Your task to perform on an android device: Search for macbook pro 13 inch on bestbuy.com, select the first entry, add it to the cart, then select checkout. Image 0: 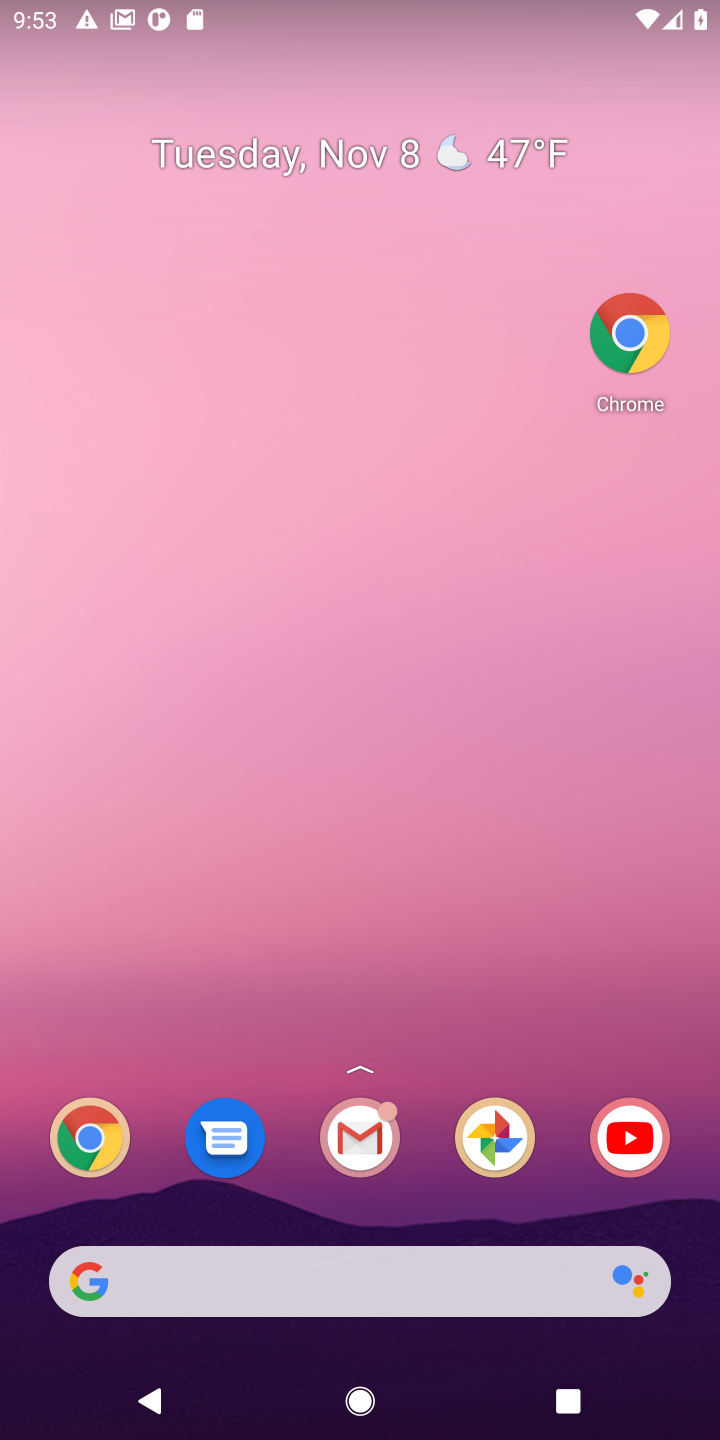
Step 0: drag from (319, 1256) to (537, 36)
Your task to perform on an android device: Search for macbook pro 13 inch on bestbuy.com, select the first entry, add it to the cart, then select checkout. Image 1: 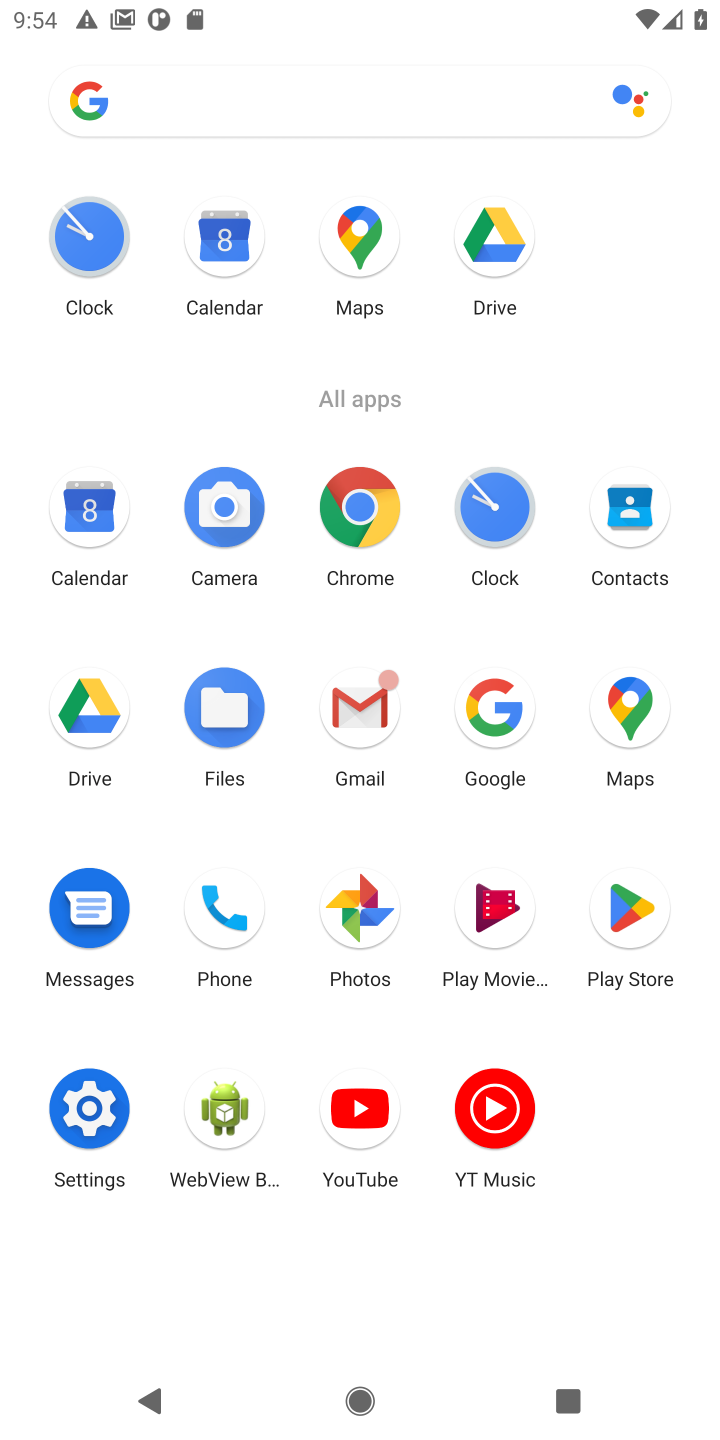
Step 1: click (353, 499)
Your task to perform on an android device: Search for macbook pro 13 inch on bestbuy.com, select the first entry, add it to the cart, then select checkout. Image 2: 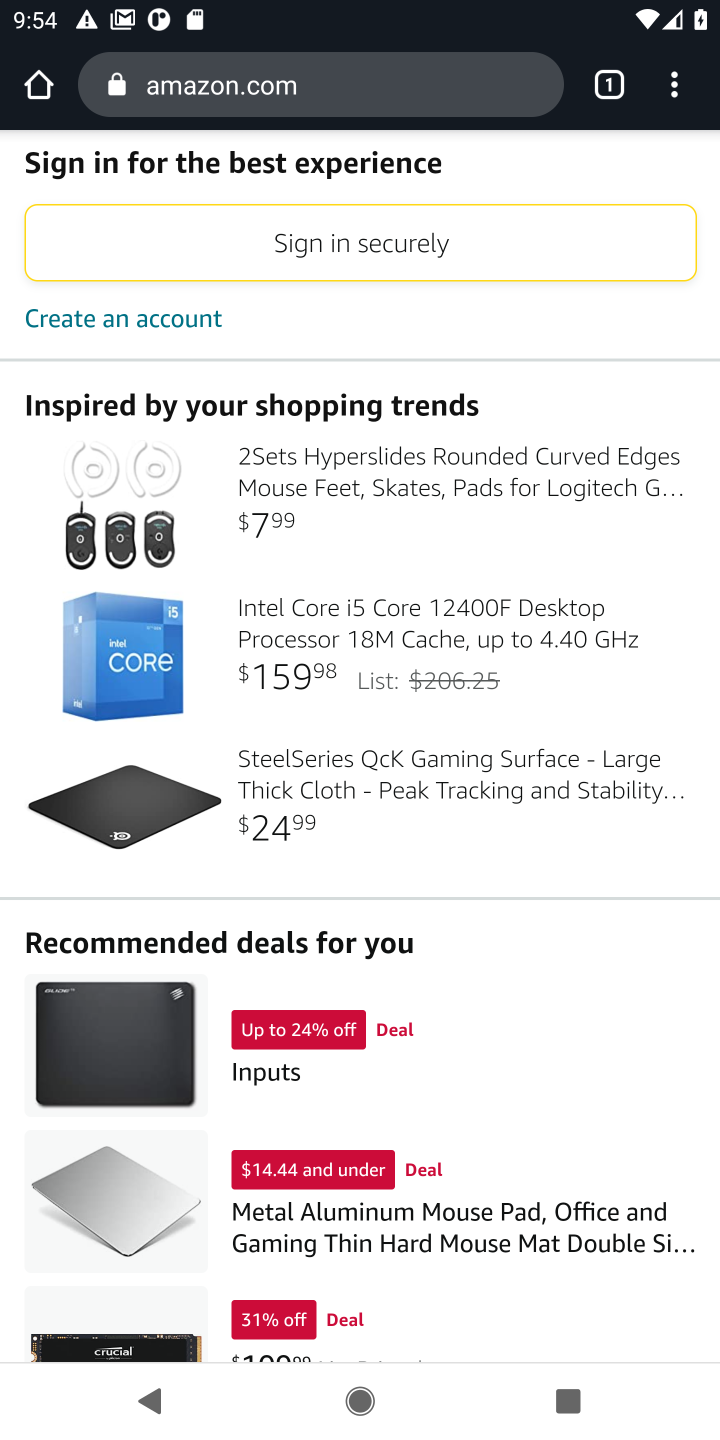
Step 2: click (326, 137)
Your task to perform on an android device: Search for macbook pro 13 inch on bestbuy.com, select the first entry, add it to the cart, then select checkout. Image 3: 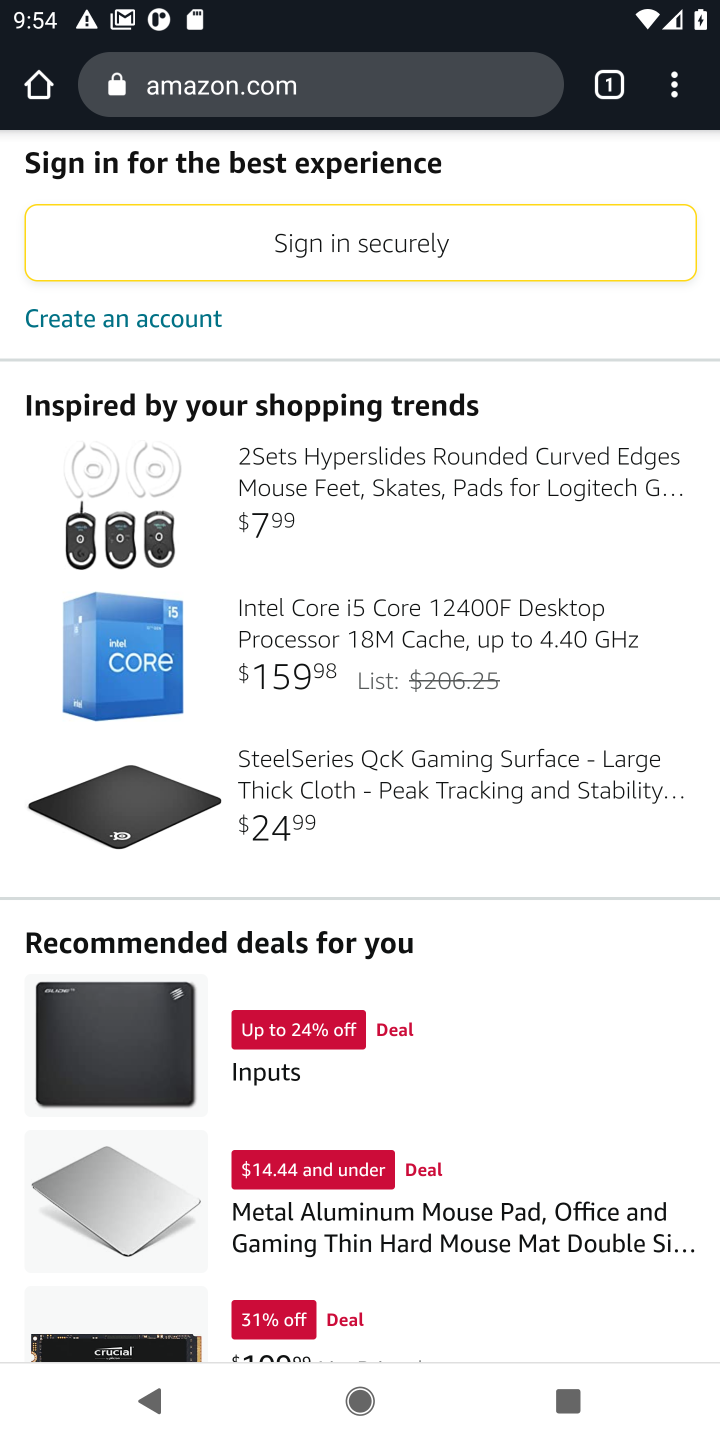
Step 3: click (353, 98)
Your task to perform on an android device: Search for macbook pro 13 inch on bestbuy.com, select the first entry, add it to the cart, then select checkout. Image 4: 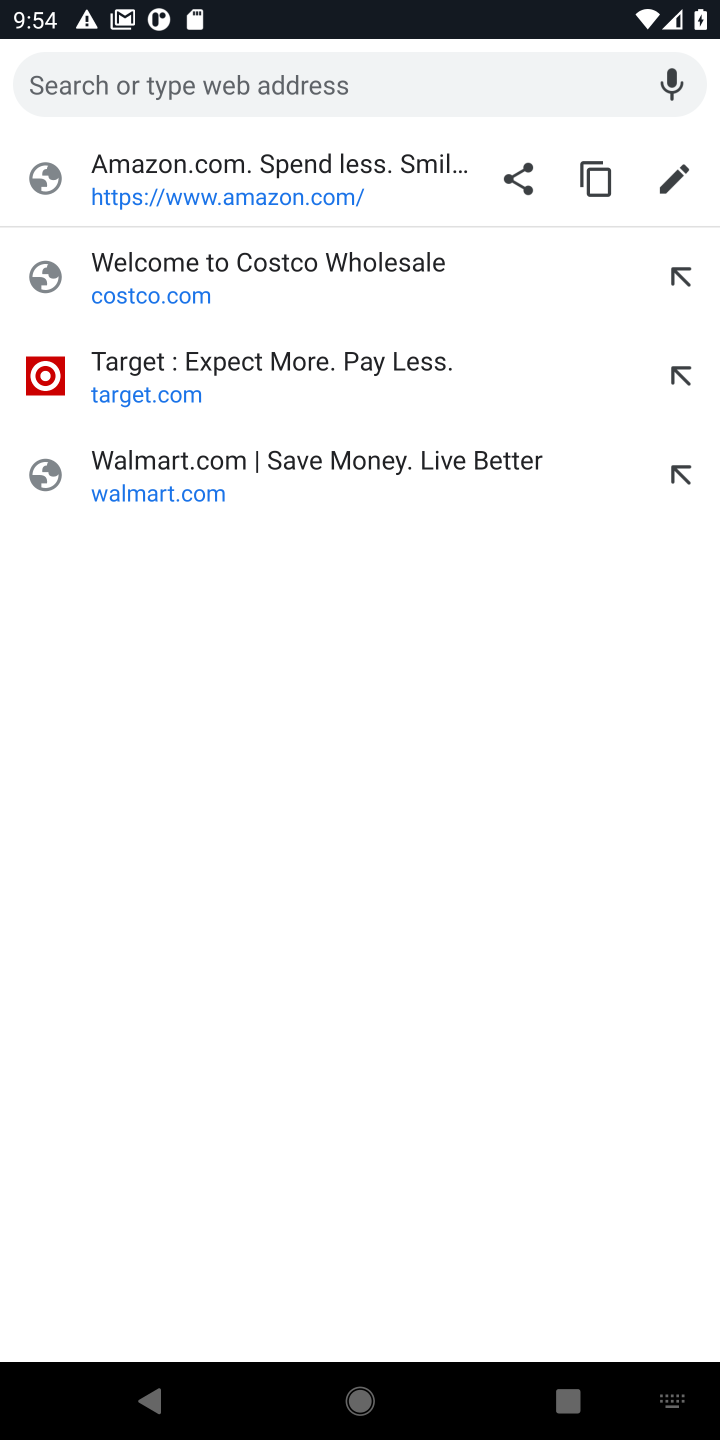
Step 4: press enter
Your task to perform on an android device: Search for macbook pro 13 inch on bestbuy.com, select the first entry, add it to the cart, then select checkout. Image 5: 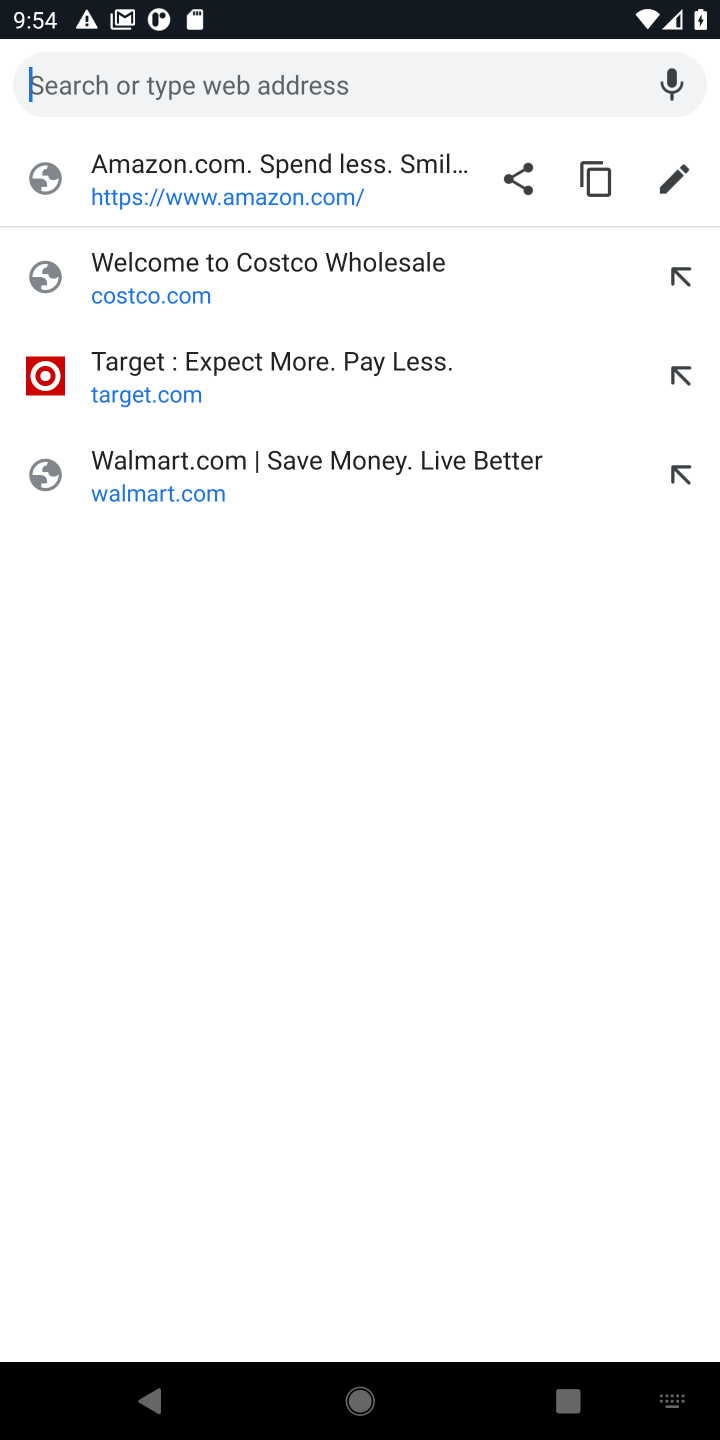
Step 5: type "bestbuy.com"
Your task to perform on an android device: Search for macbook pro 13 inch on bestbuy.com, select the first entry, add it to the cart, then select checkout. Image 6: 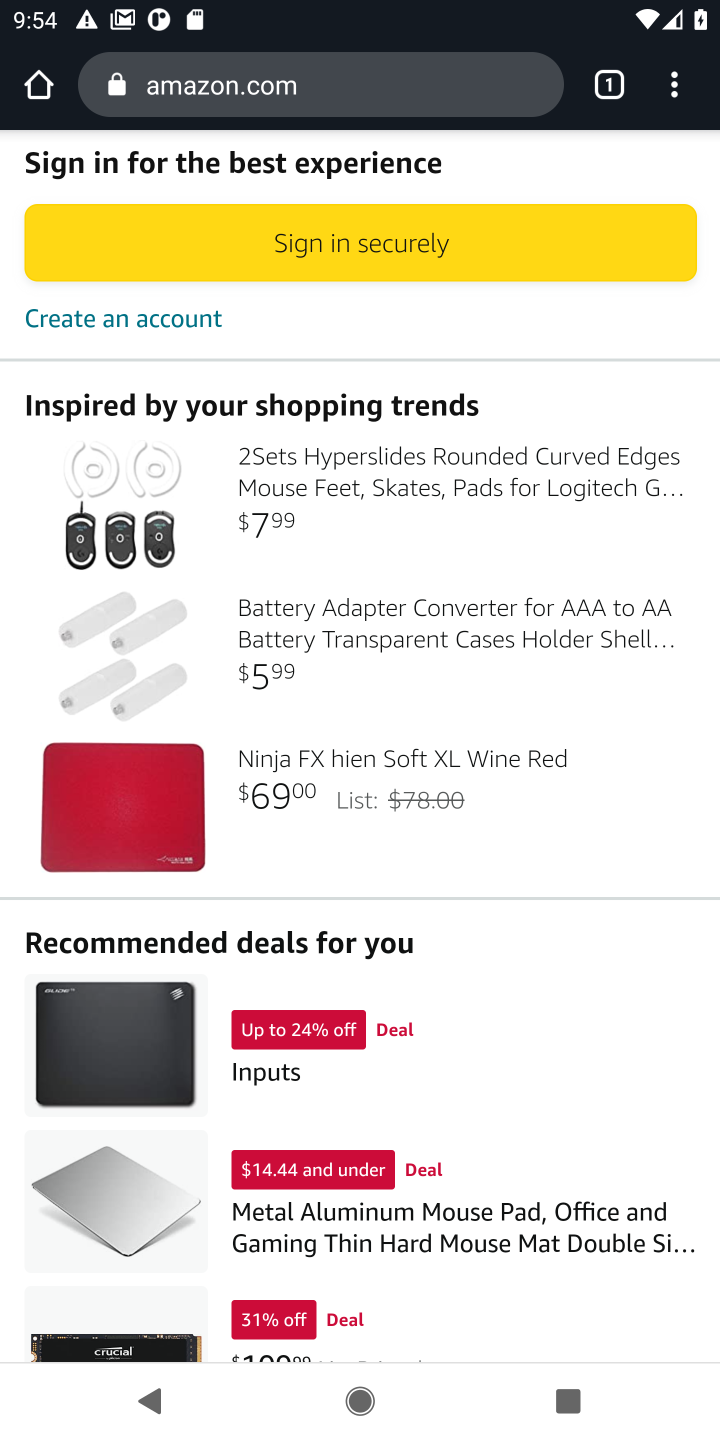
Step 6: drag from (412, 955) to (552, 483)
Your task to perform on an android device: Search for macbook pro 13 inch on bestbuy.com, select the first entry, add it to the cart, then select checkout. Image 7: 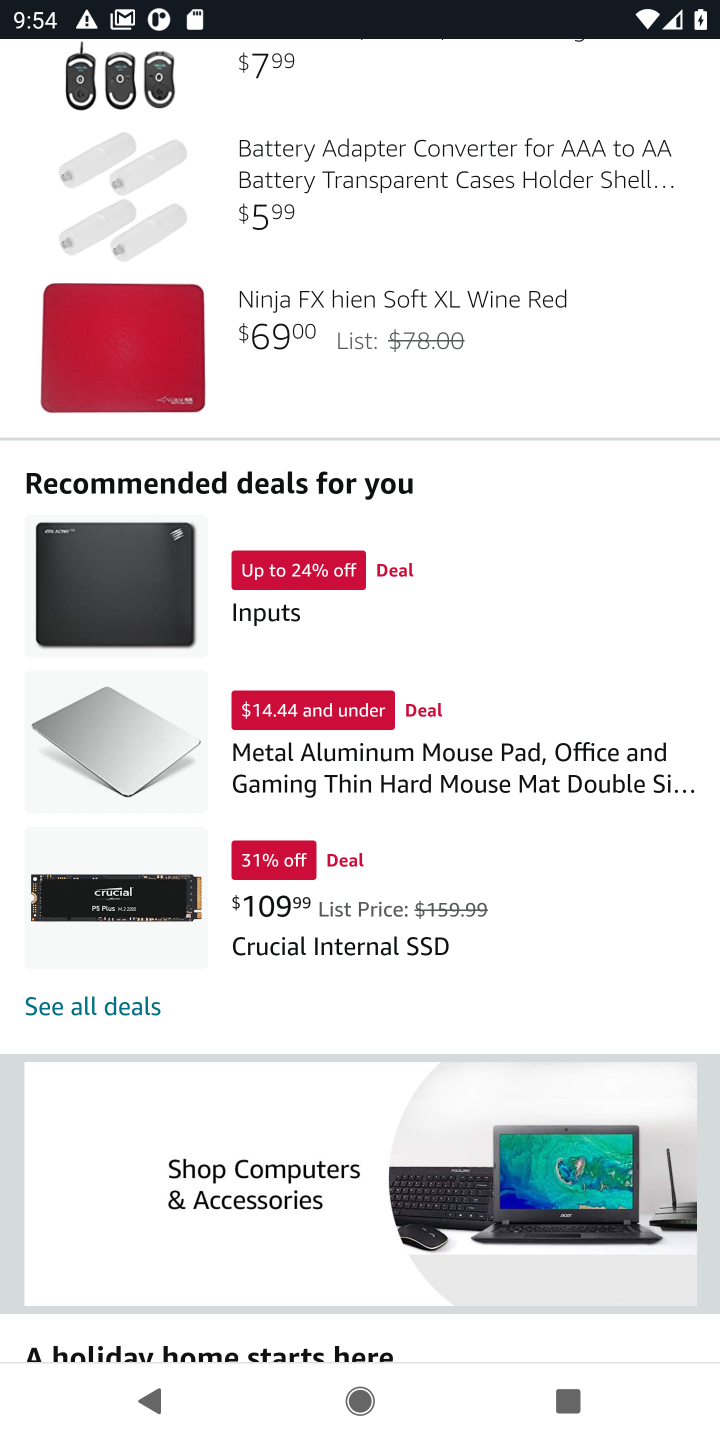
Step 7: drag from (381, 1057) to (536, 211)
Your task to perform on an android device: Search for macbook pro 13 inch on bestbuy.com, select the first entry, add it to the cart, then select checkout. Image 8: 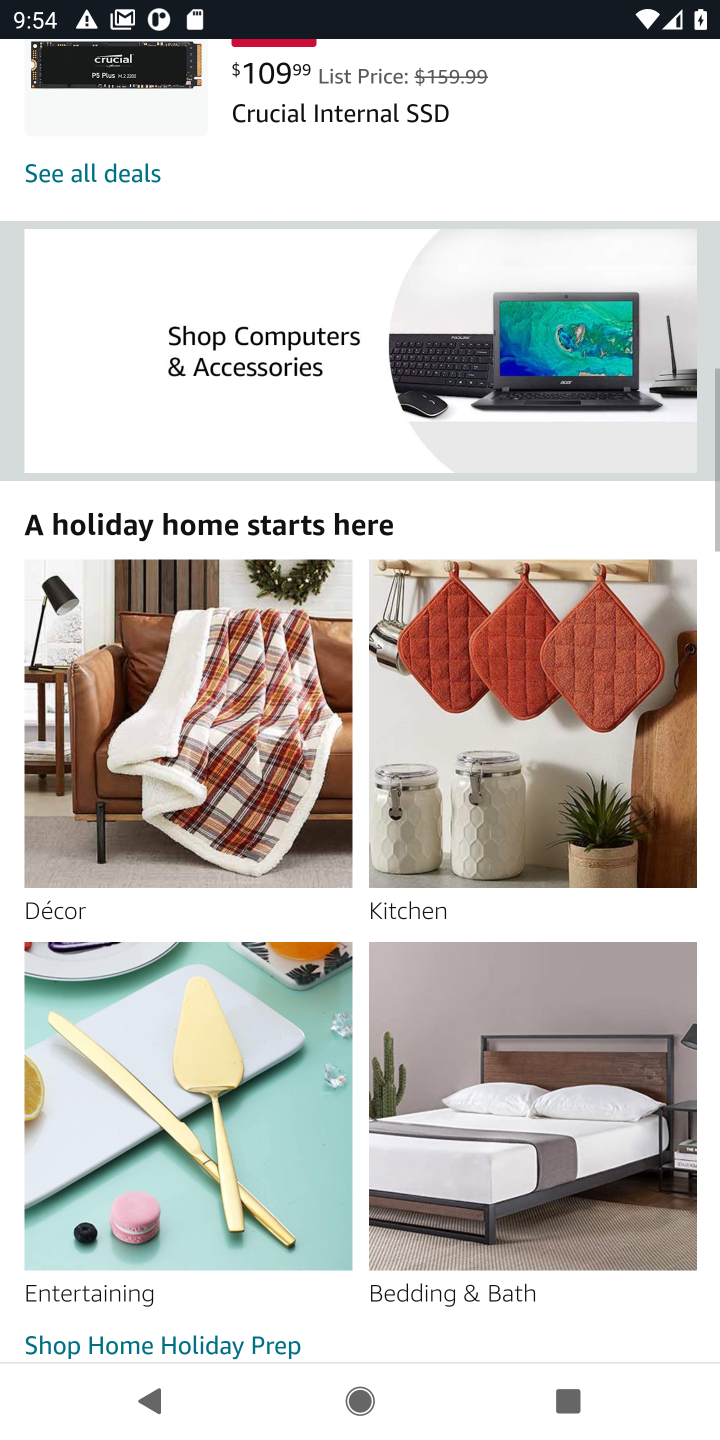
Step 8: drag from (369, 1074) to (519, 409)
Your task to perform on an android device: Search for macbook pro 13 inch on bestbuy.com, select the first entry, add it to the cart, then select checkout. Image 9: 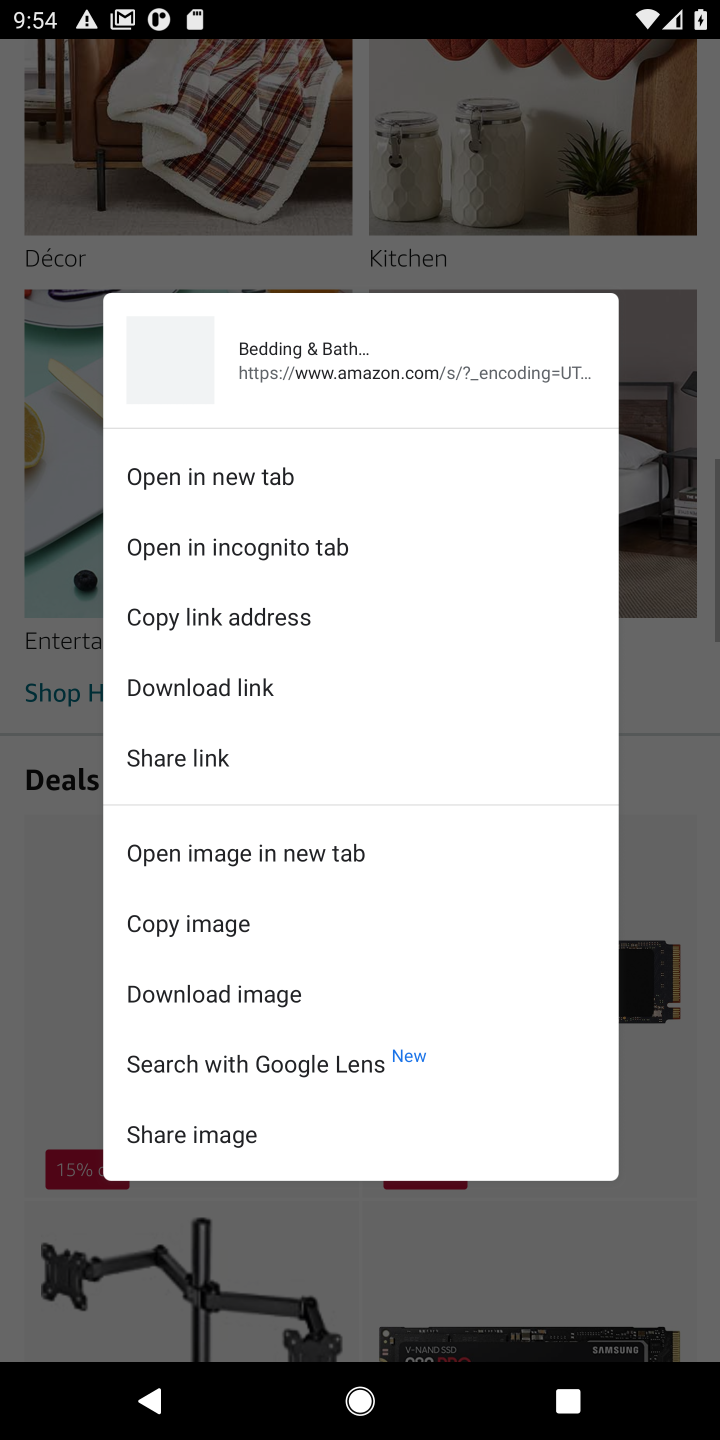
Step 9: drag from (472, 529) to (303, 1166)
Your task to perform on an android device: Search for macbook pro 13 inch on bestbuy.com, select the first entry, add it to the cart, then select checkout. Image 10: 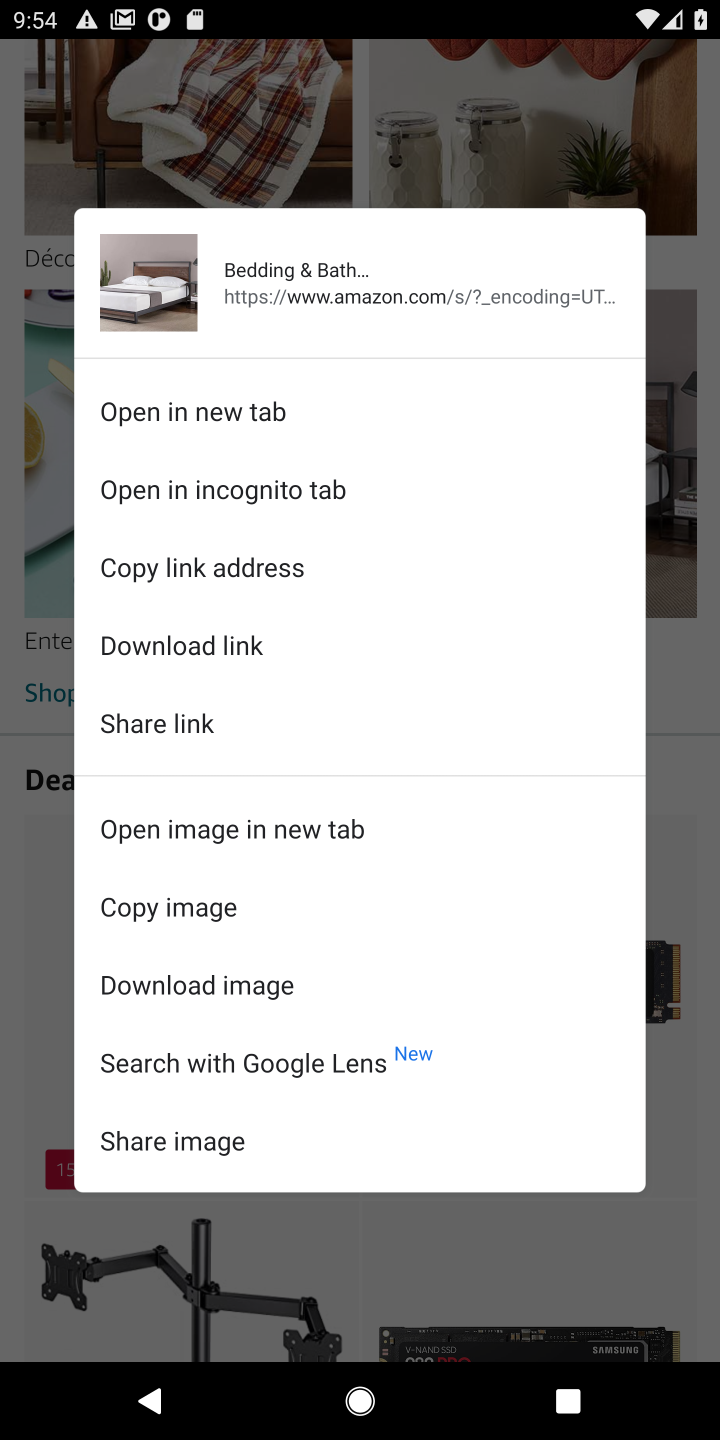
Step 10: click (343, 1210)
Your task to perform on an android device: Search for macbook pro 13 inch on bestbuy.com, select the first entry, add it to the cart, then select checkout. Image 11: 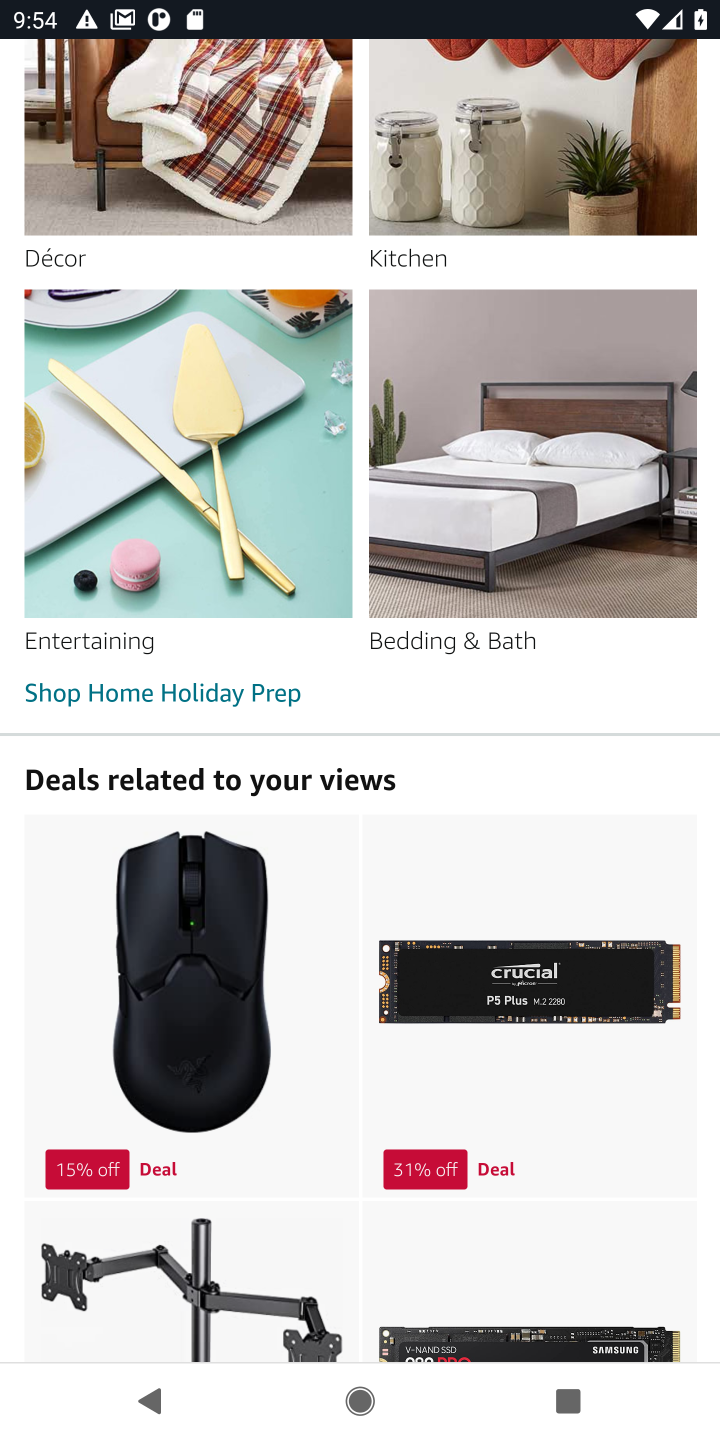
Step 11: drag from (556, 460) to (449, 979)
Your task to perform on an android device: Search for macbook pro 13 inch on bestbuy.com, select the first entry, add it to the cart, then select checkout. Image 12: 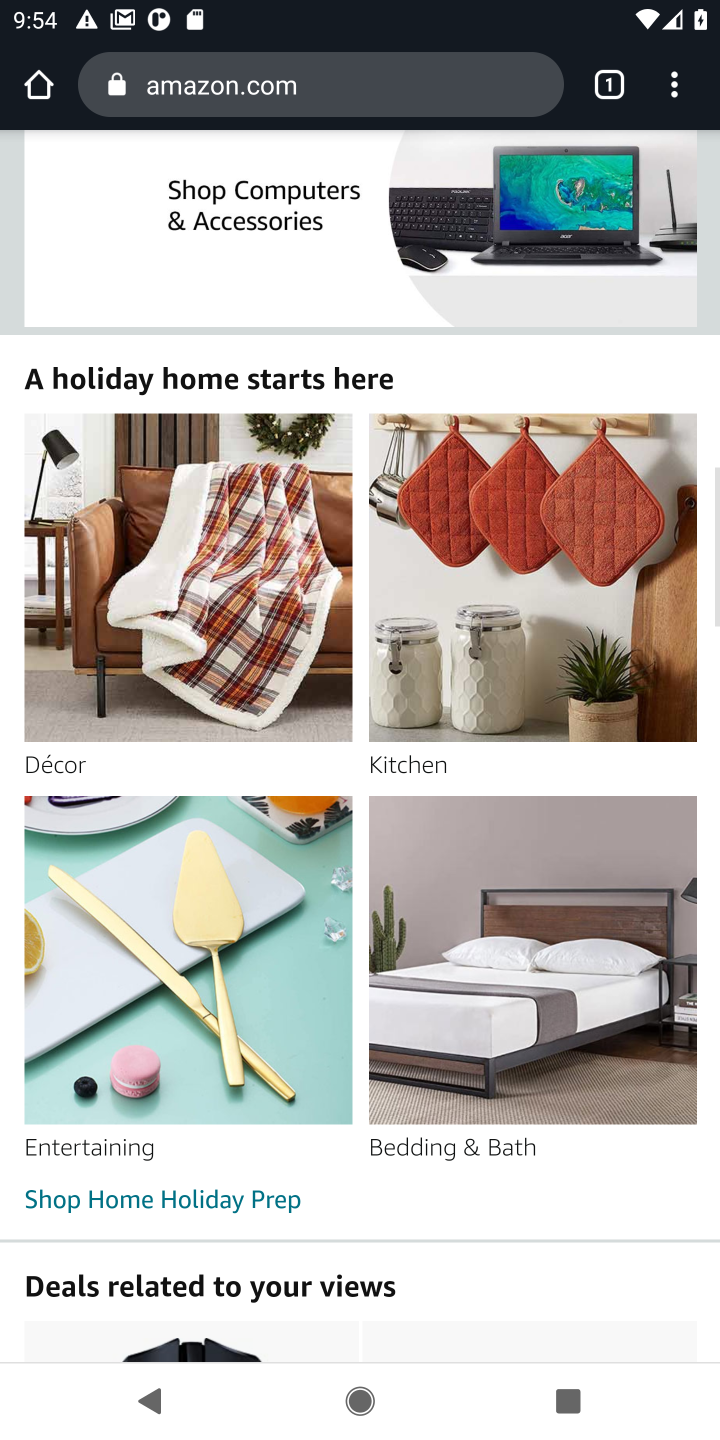
Step 12: click (437, 841)
Your task to perform on an android device: Search for macbook pro 13 inch on bestbuy.com, select the first entry, add it to the cart, then select checkout. Image 13: 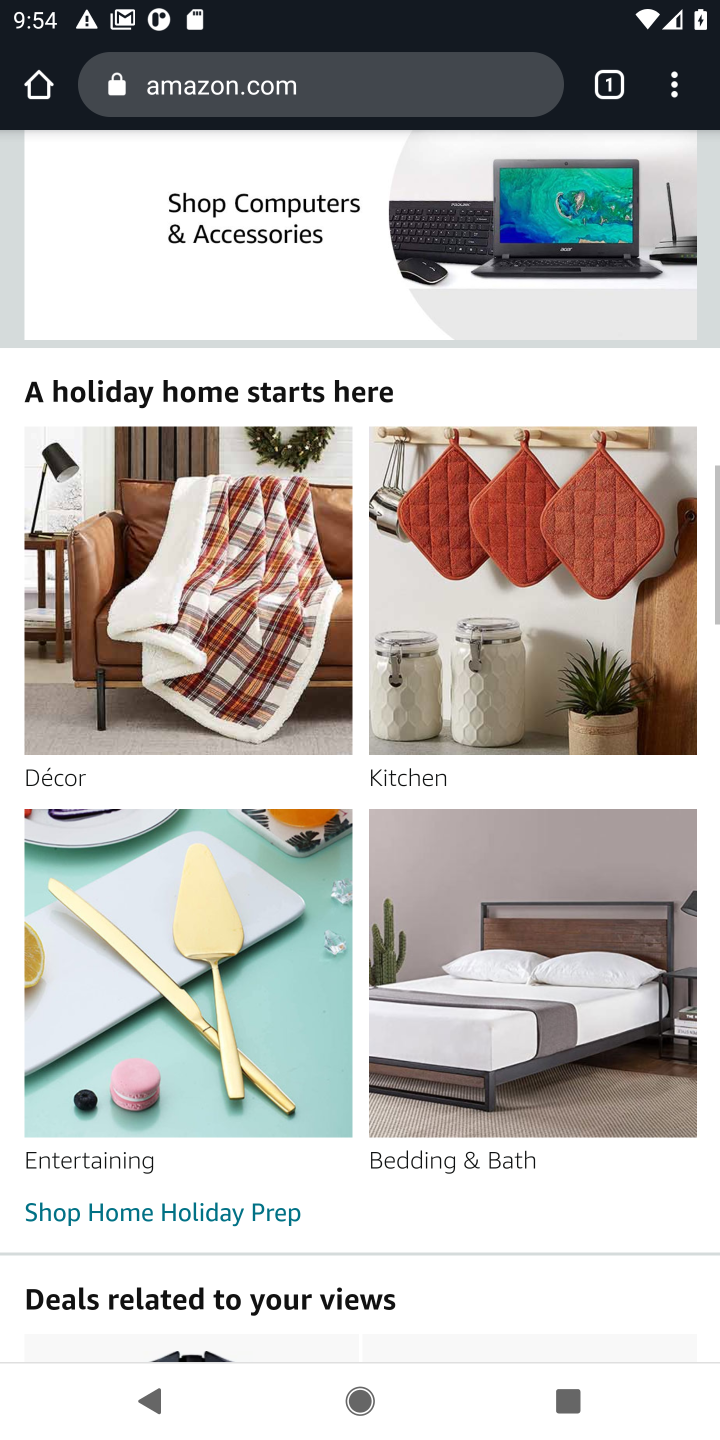
Step 13: drag from (534, 303) to (447, 830)
Your task to perform on an android device: Search for macbook pro 13 inch on bestbuy.com, select the first entry, add it to the cart, then select checkout. Image 14: 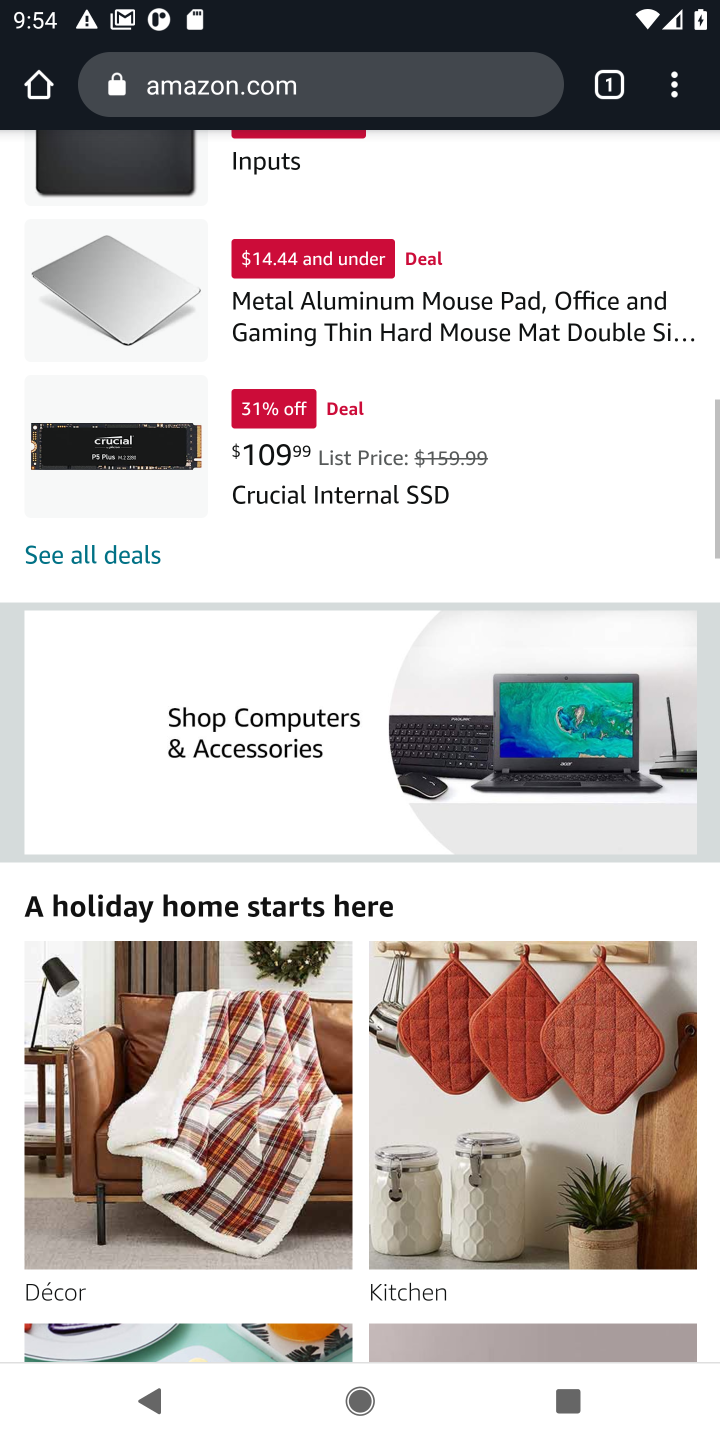
Step 14: drag from (581, 416) to (505, 888)
Your task to perform on an android device: Search for macbook pro 13 inch on bestbuy.com, select the first entry, add it to the cart, then select checkout. Image 15: 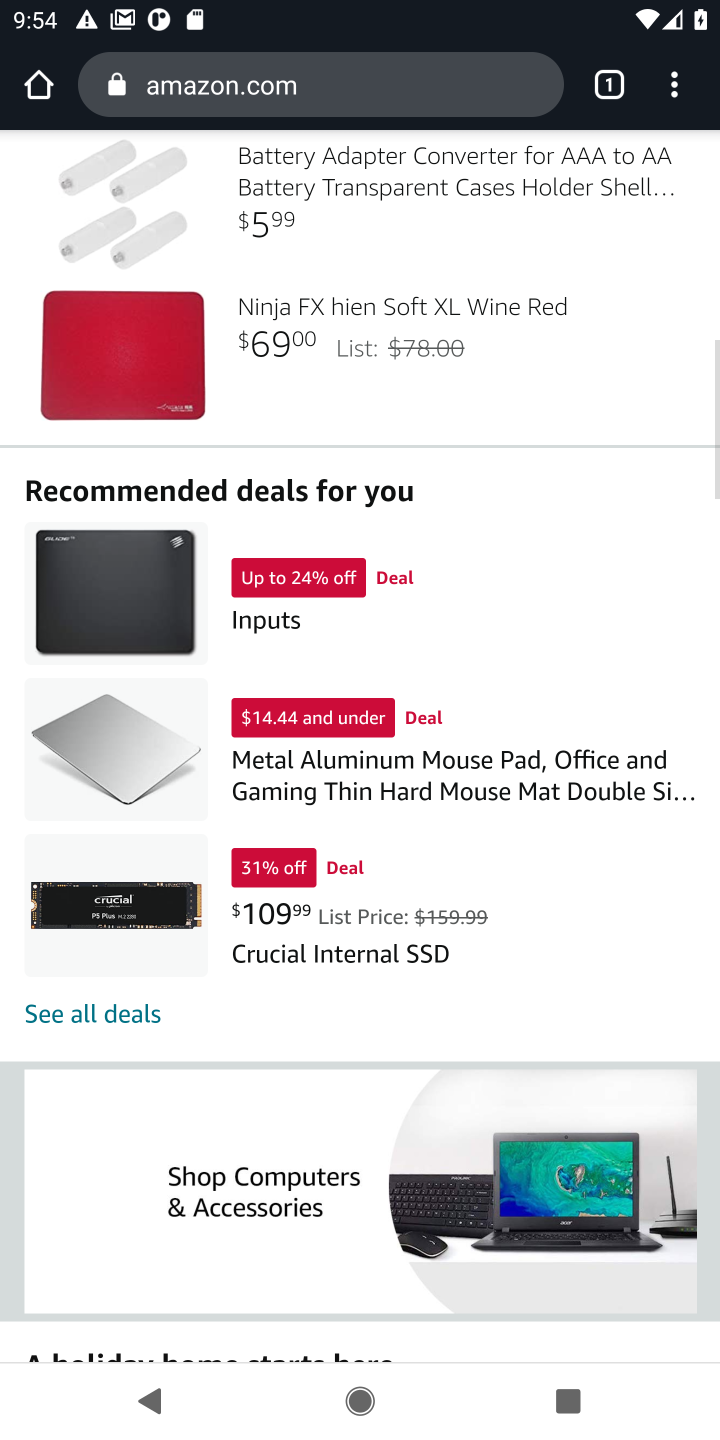
Step 15: click (507, 766)
Your task to perform on an android device: Search for macbook pro 13 inch on bestbuy.com, select the first entry, add it to the cart, then select checkout. Image 16: 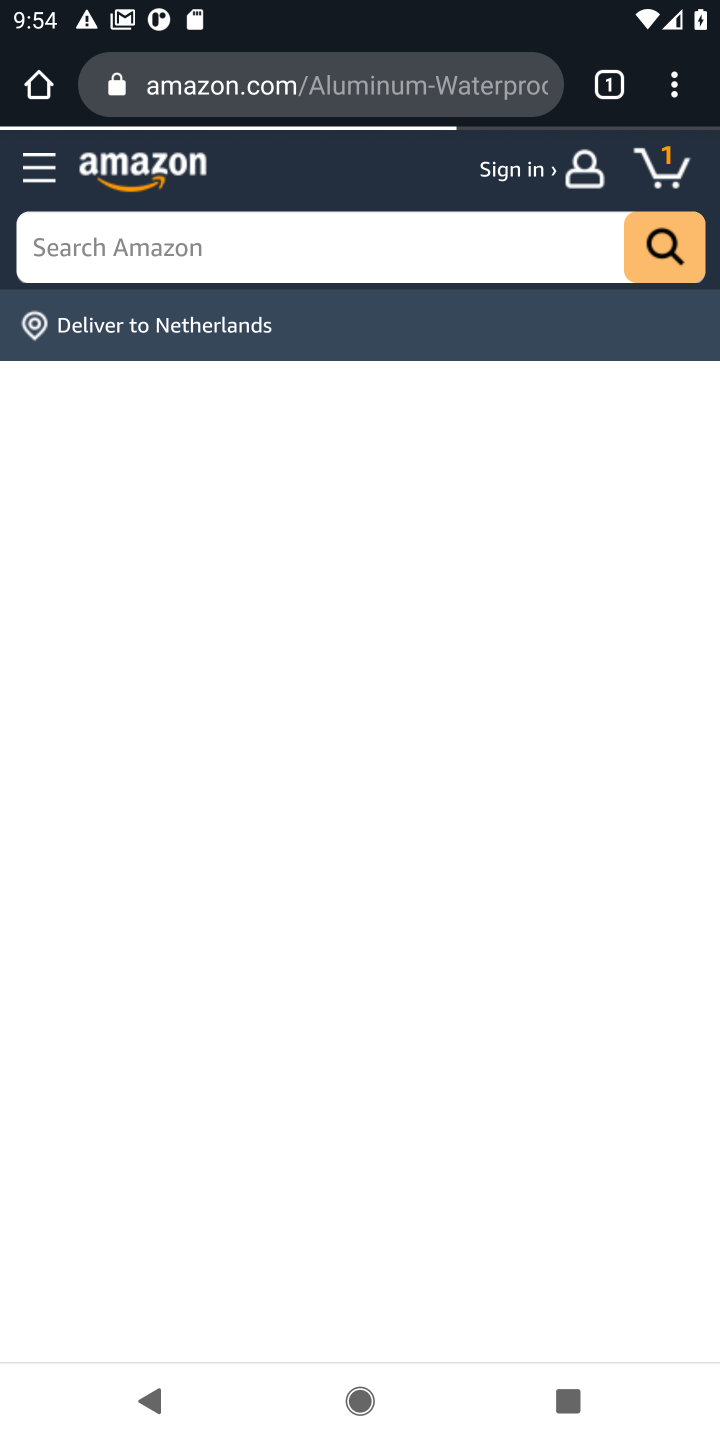
Step 16: drag from (529, 576) to (518, 875)
Your task to perform on an android device: Search for macbook pro 13 inch on bestbuy.com, select the first entry, add it to the cart, then select checkout. Image 17: 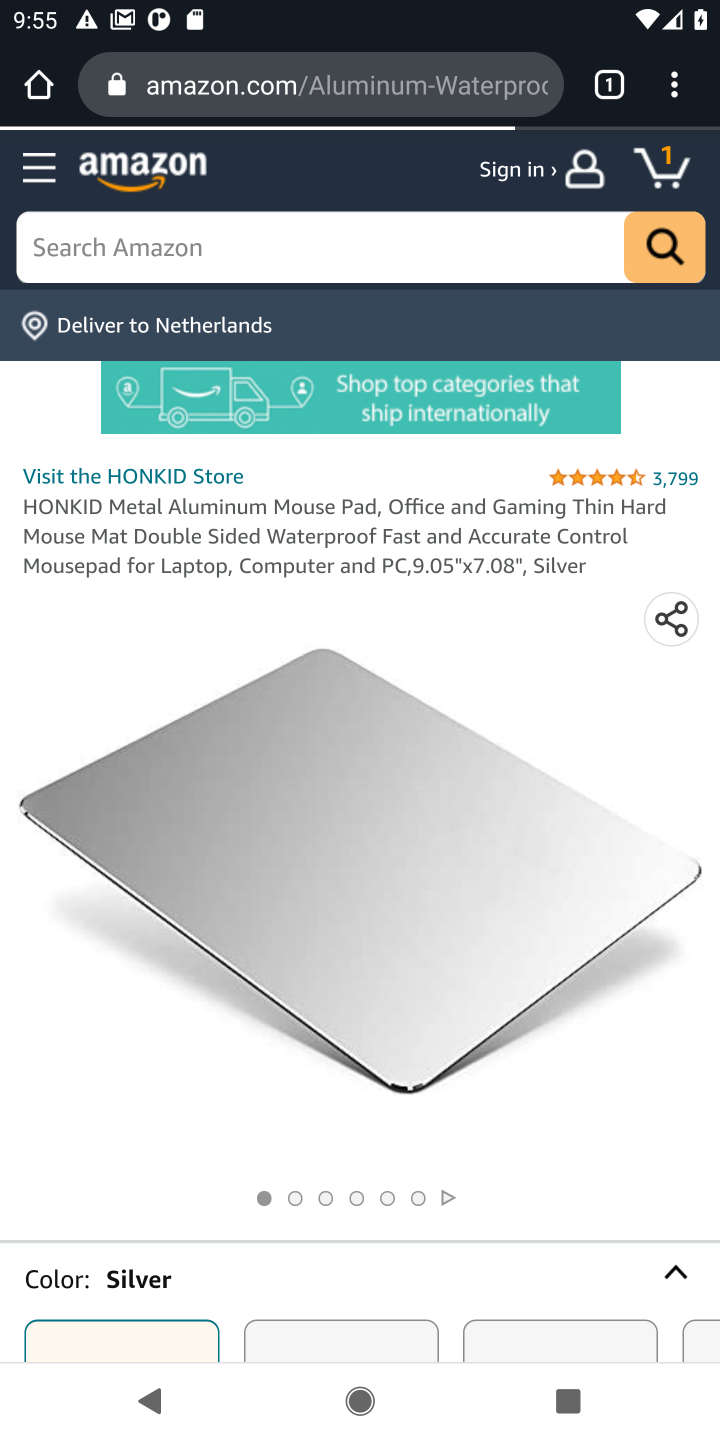
Step 17: click (384, 268)
Your task to perform on an android device: Search for macbook pro 13 inch on bestbuy.com, select the first entry, add it to the cart, then select checkout. Image 18: 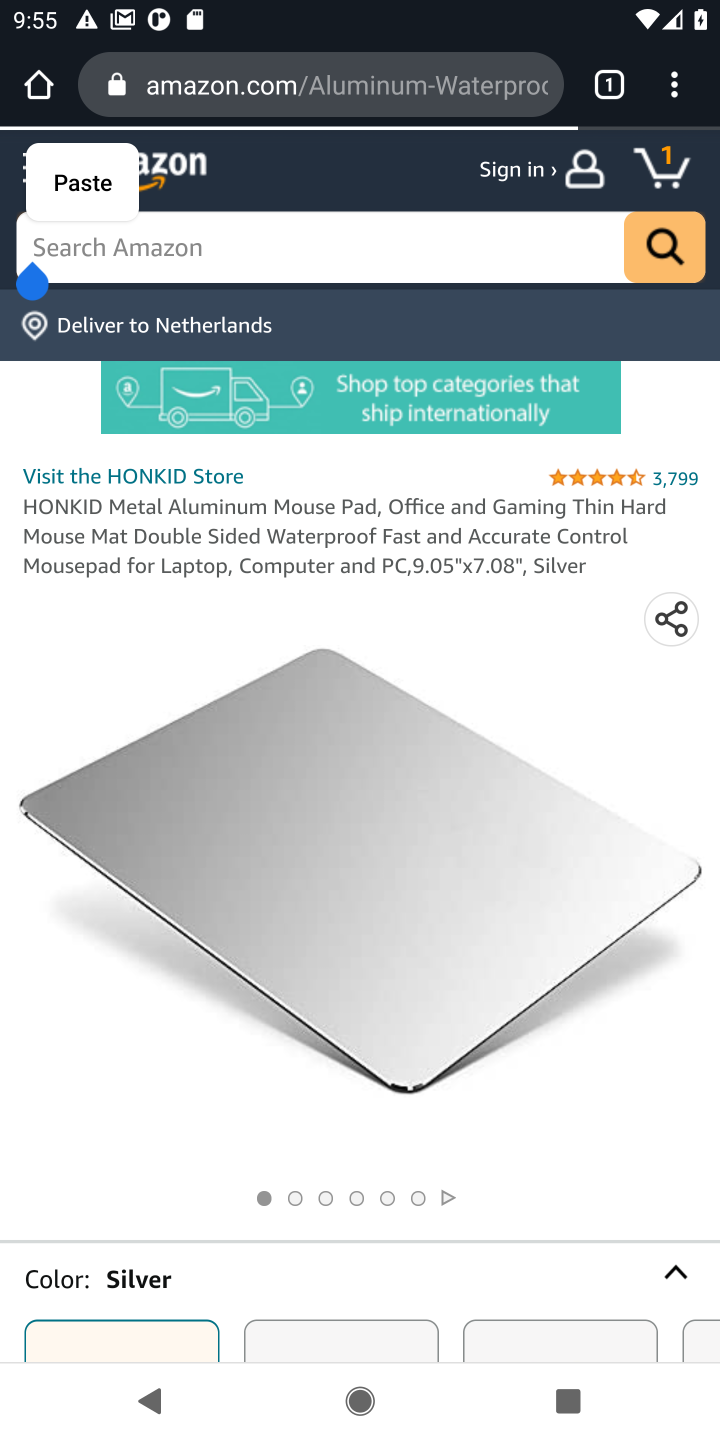
Step 18: click (71, 197)
Your task to perform on an android device: Search for macbook pro 13 inch on bestbuy.com, select the first entry, add it to the cart, then select checkout. Image 19: 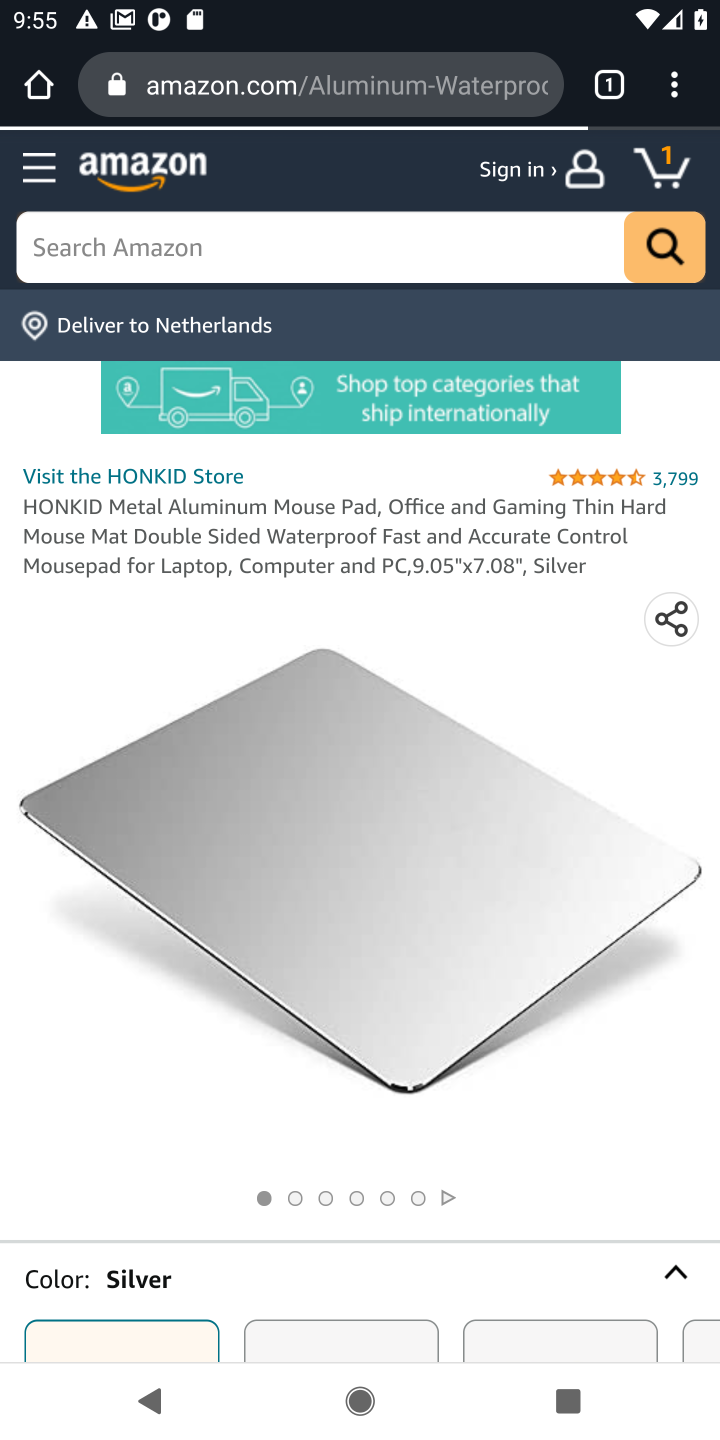
Step 19: click (348, 78)
Your task to perform on an android device: Search for macbook pro 13 inch on bestbuy.com, select the first entry, add it to the cart, then select checkout. Image 20: 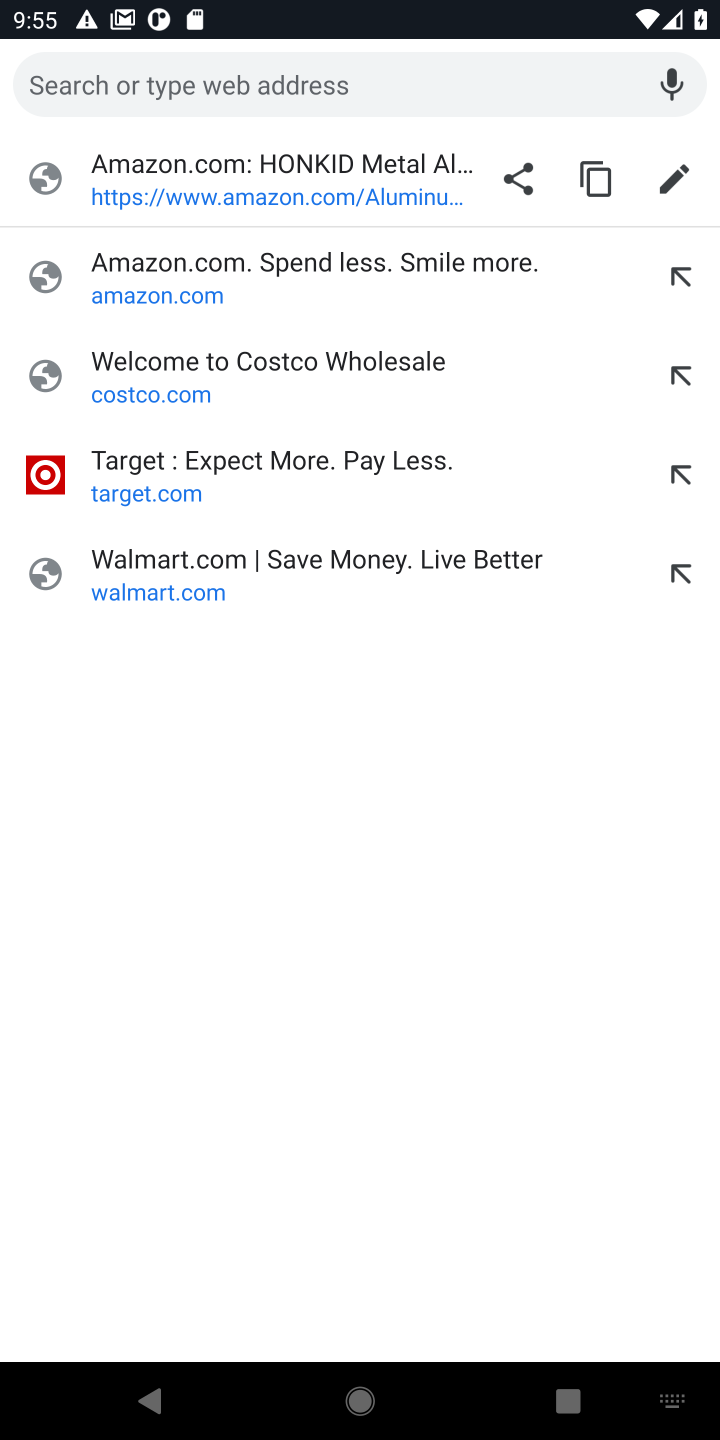
Step 20: type "bestbuy.com"
Your task to perform on an android device: Search for macbook pro 13 inch on bestbuy.com, select the first entry, add it to the cart, then select checkout. Image 21: 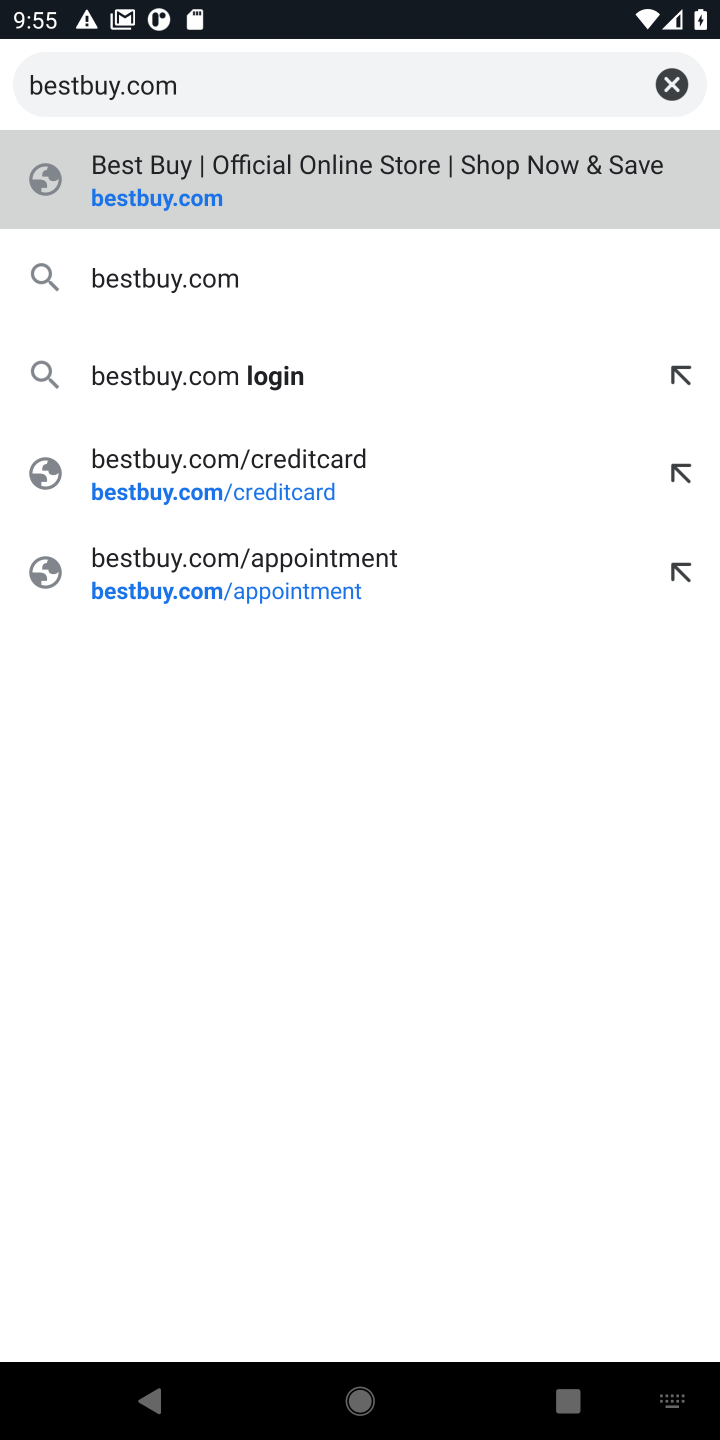
Step 21: press enter
Your task to perform on an android device: Search for macbook pro 13 inch on bestbuy.com, select the first entry, add it to the cart, then select checkout. Image 22: 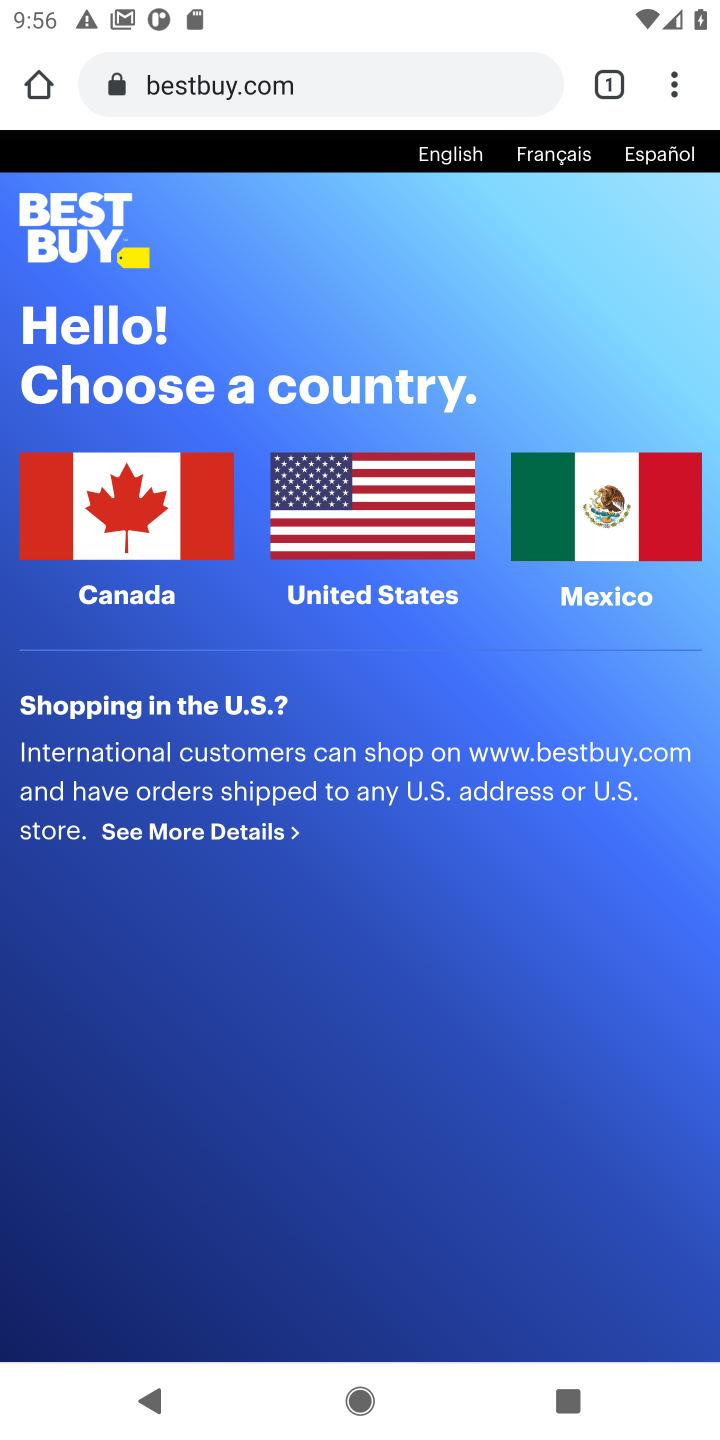
Step 22: click (125, 525)
Your task to perform on an android device: Search for macbook pro 13 inch on bestbuy.com, select the first entry, add it to the cart, then select checkout. Image 23: 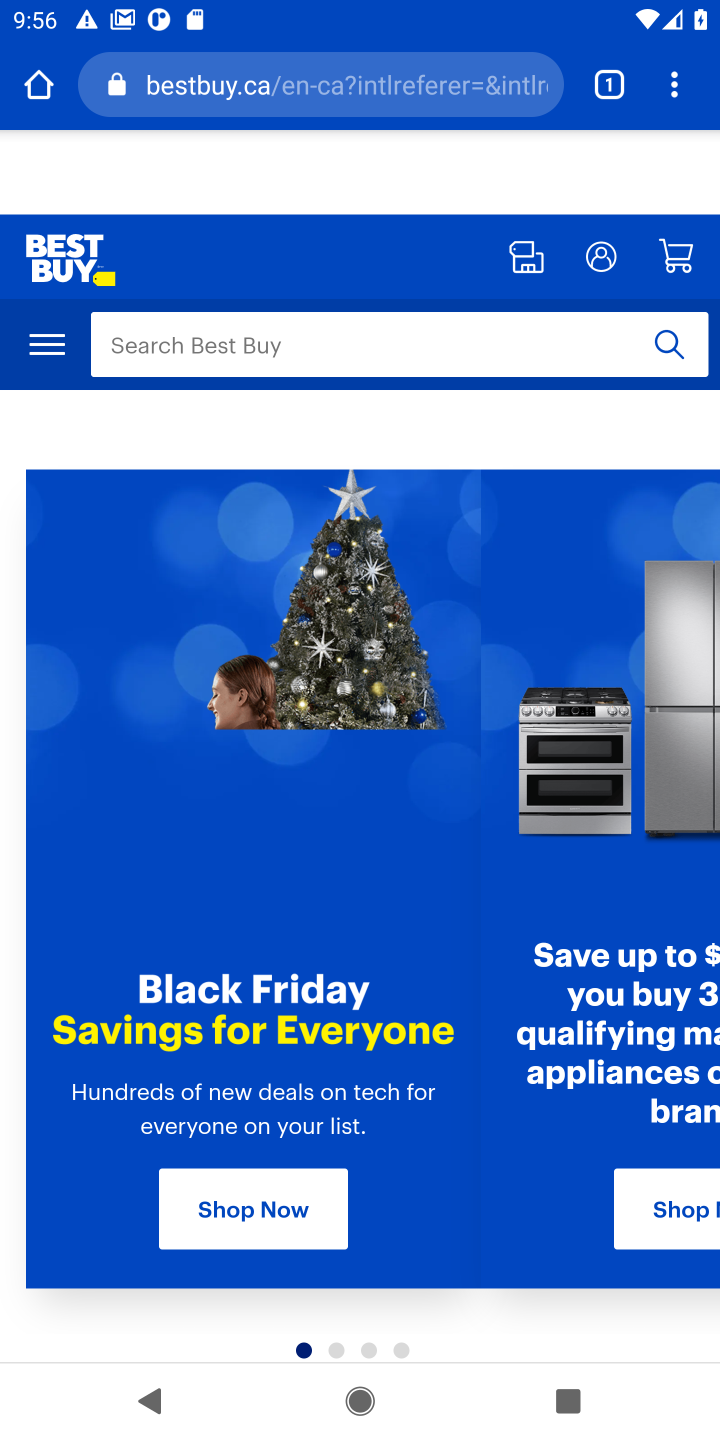
Step 23: click (196, 338)
Your task to perform on an android device: Search for macbook pro 13 inch on bestbuy.com, select the first entry, add it to the cart, then select checkout. Image 24: 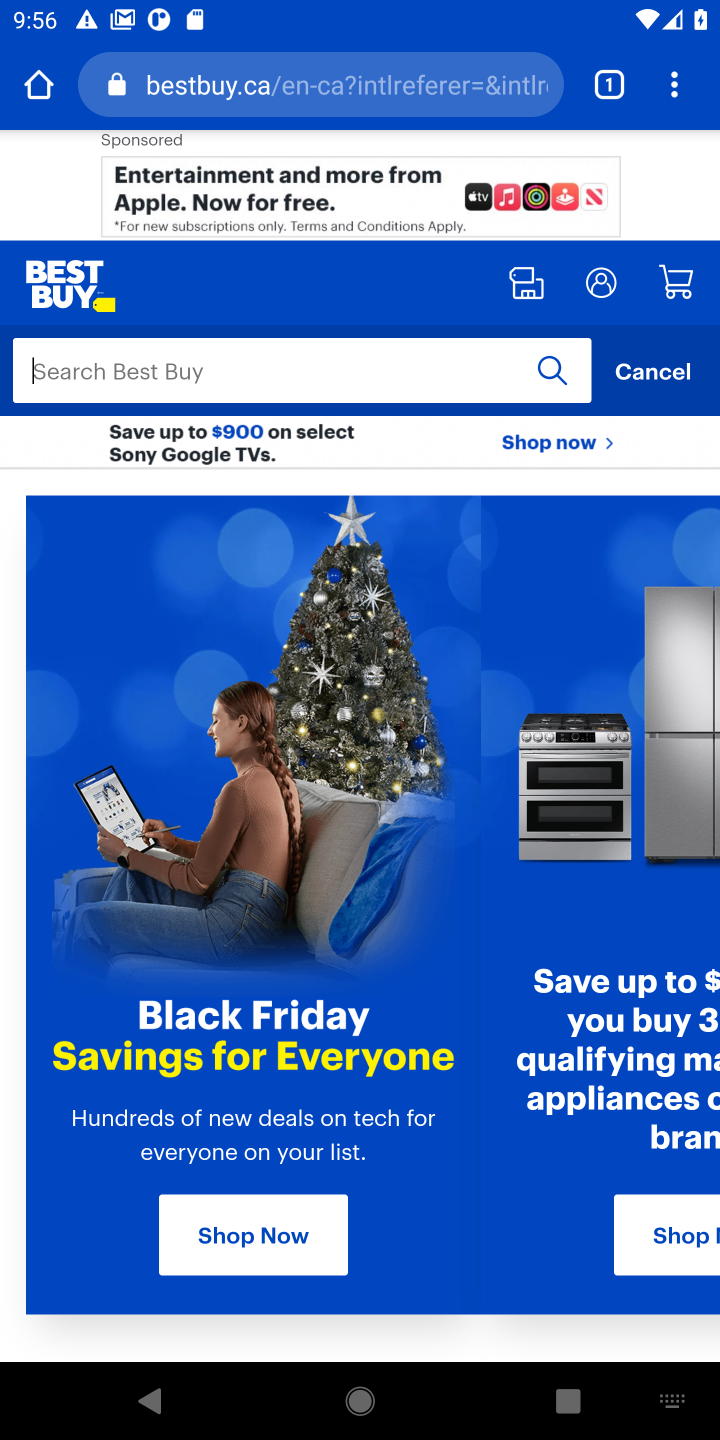
Step 24: type "macbook pro 13 inch"
Your task to perform on an android device: Search for macbook pro 13 inch on bestbuy.com, select the first entry, add it to the cart, then select checkout. Image 25: 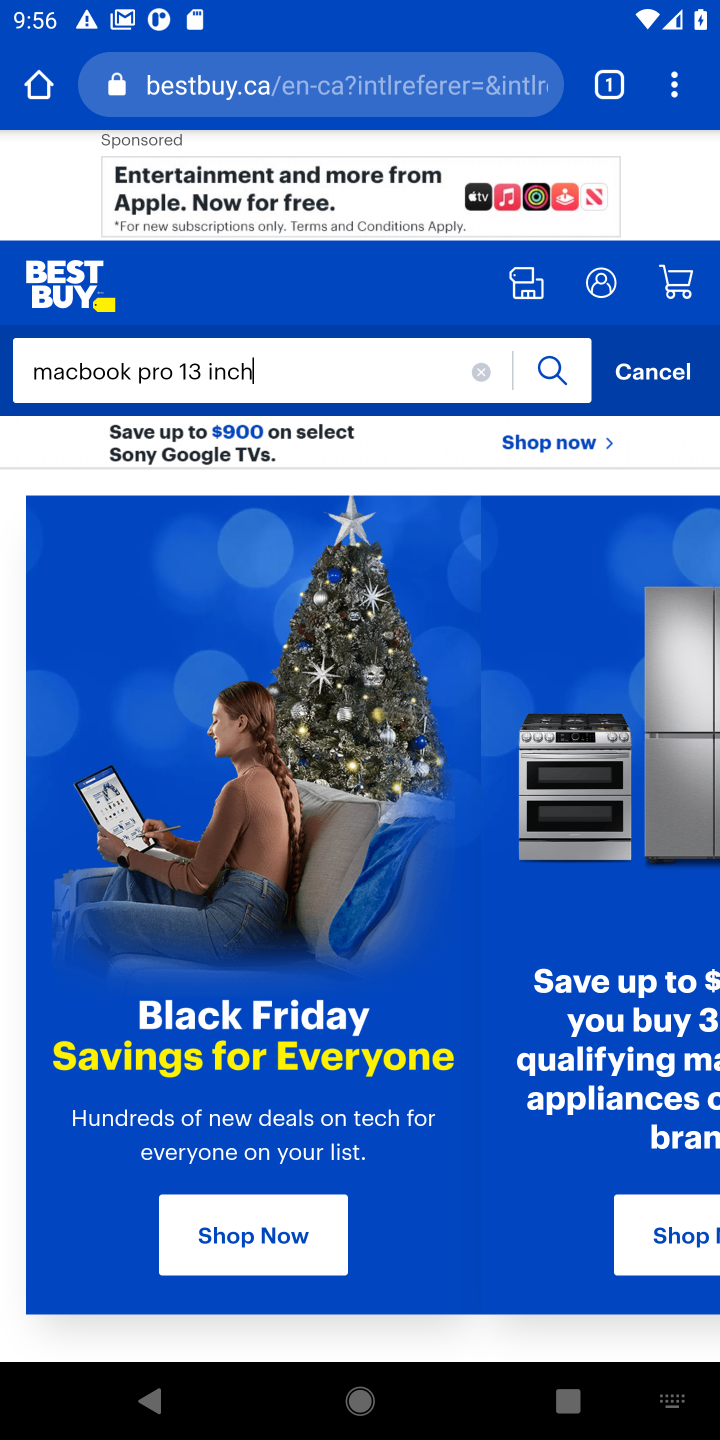
Step 25: press enter
Your task to perform on an android device: Search for macbook pro 13 inch on bestbuy.com, select the first entry, add it to the cart, then select checkout. Image 26: 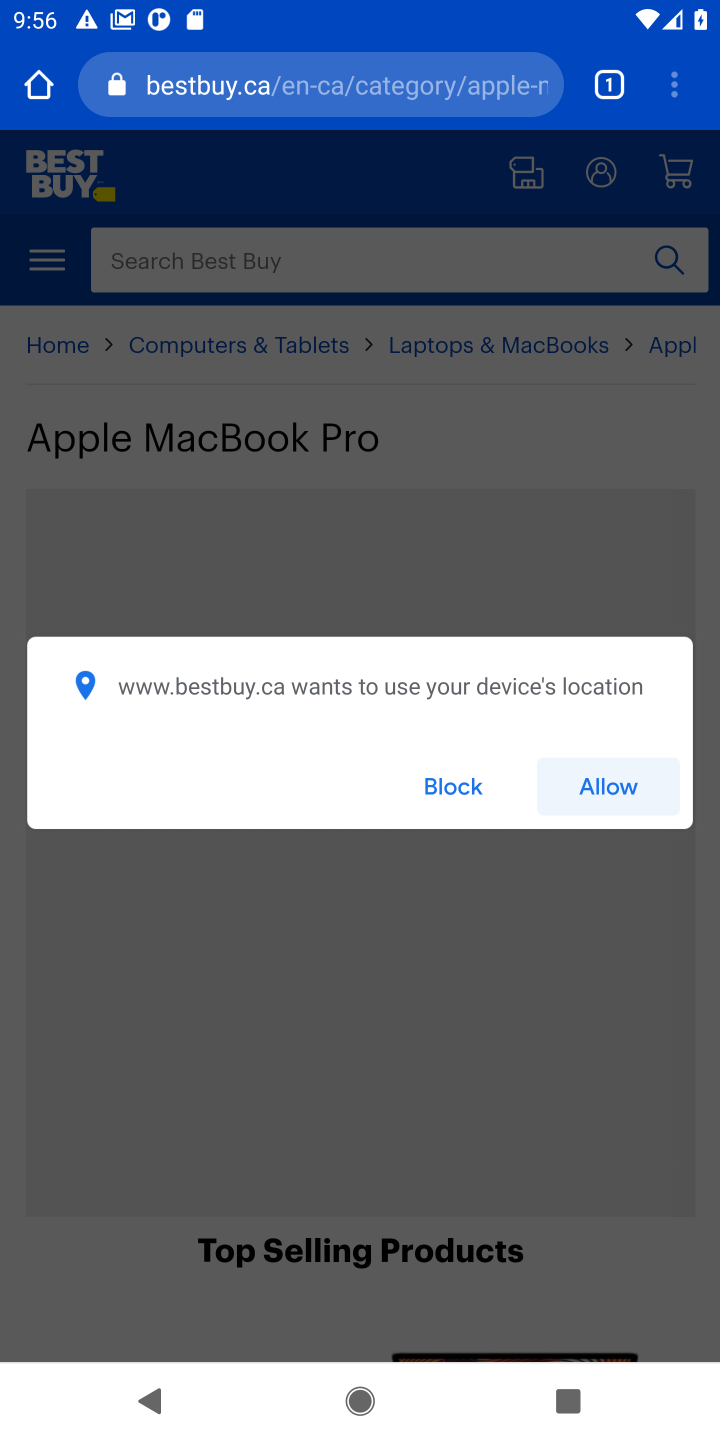
Step 26: click (606, 782)
Your task to perform on an android device: Search for macbook pro 13 inch on bestbuy.com, select the first entry, add it to the cart, then select checkout. Image 27: 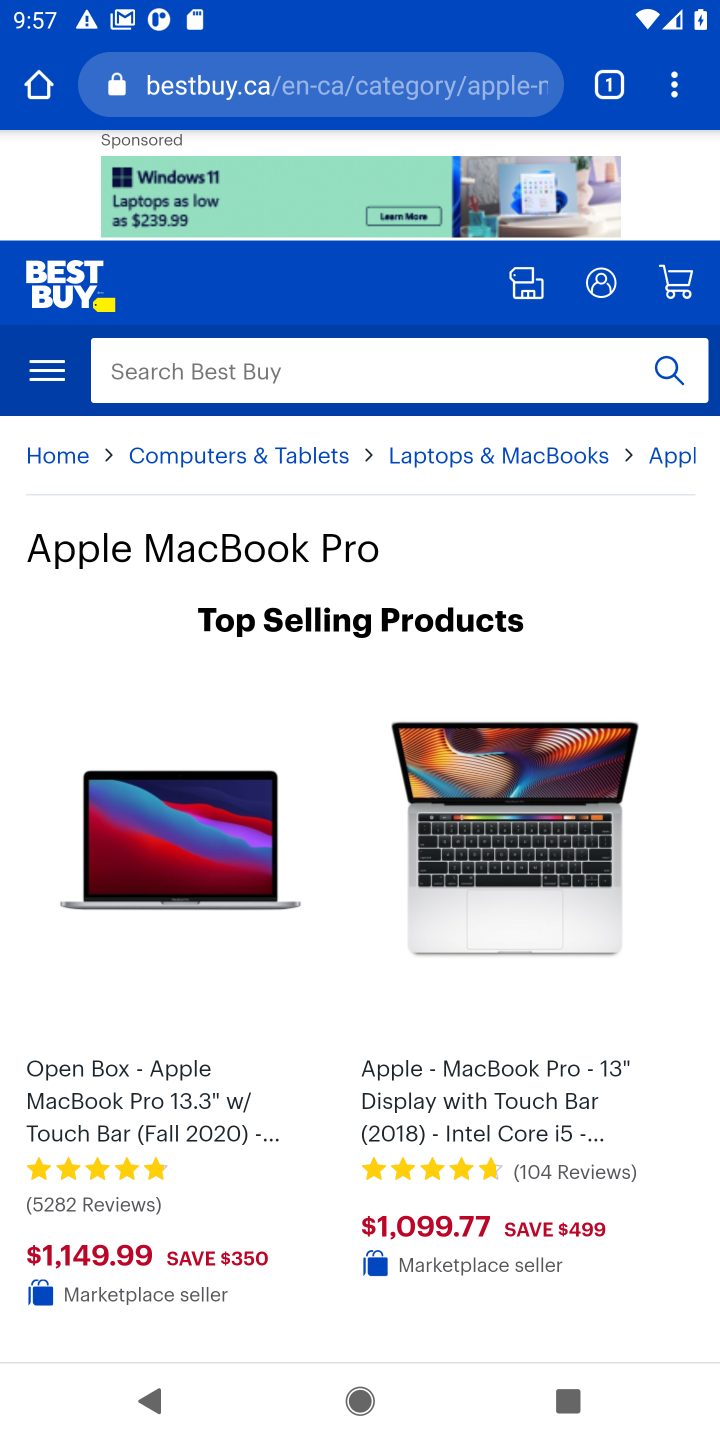
Step 27: drag from (148, 998) to (244, 713)
Your task to perform on an android device: Search for macbook pro 13 inch on bestbuy.com, select the first entry, add it to the cart, then select checkout. Image 28: 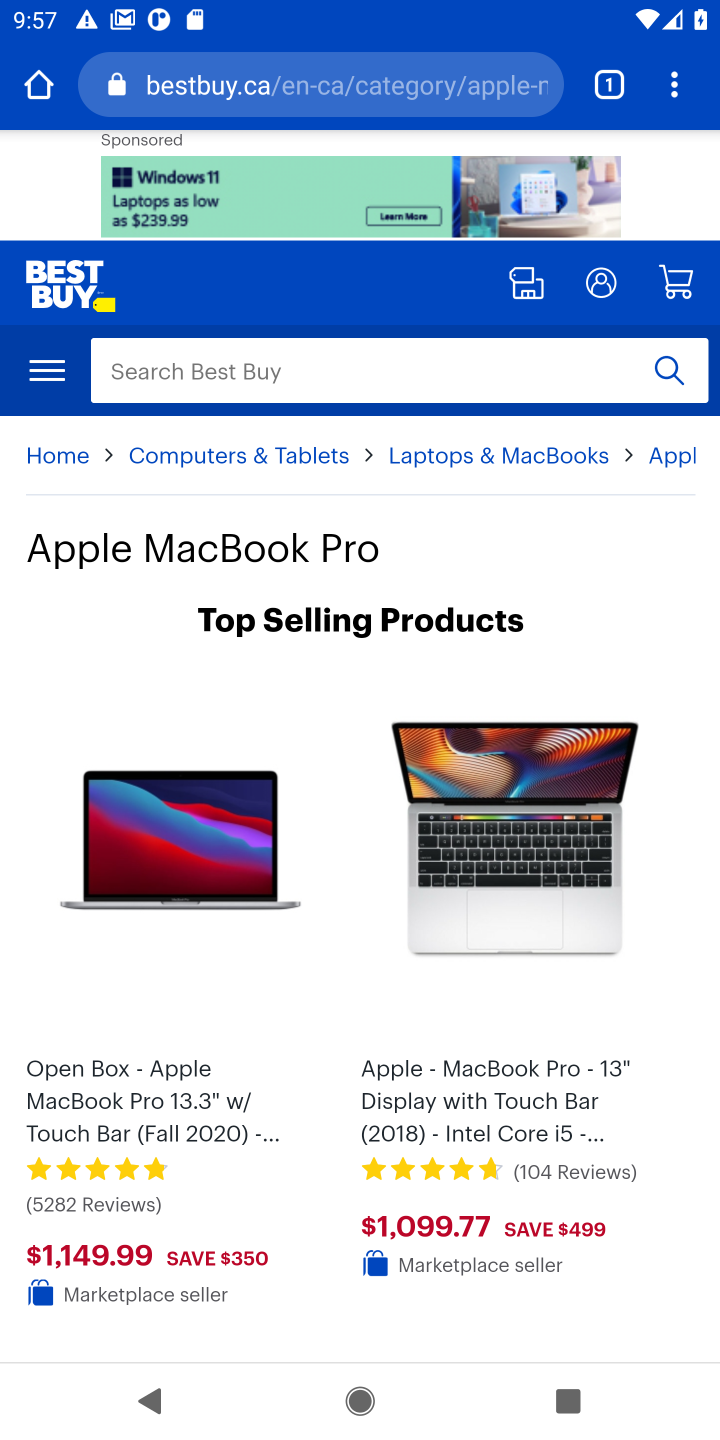
Step 28: drag from (239, 1192) to (330, 670)
Your task to perform on an android device: Search for macbook pro 13 inch on bestbuy.com, select the first entry, add it to the cart, then select checkout. Image 29: 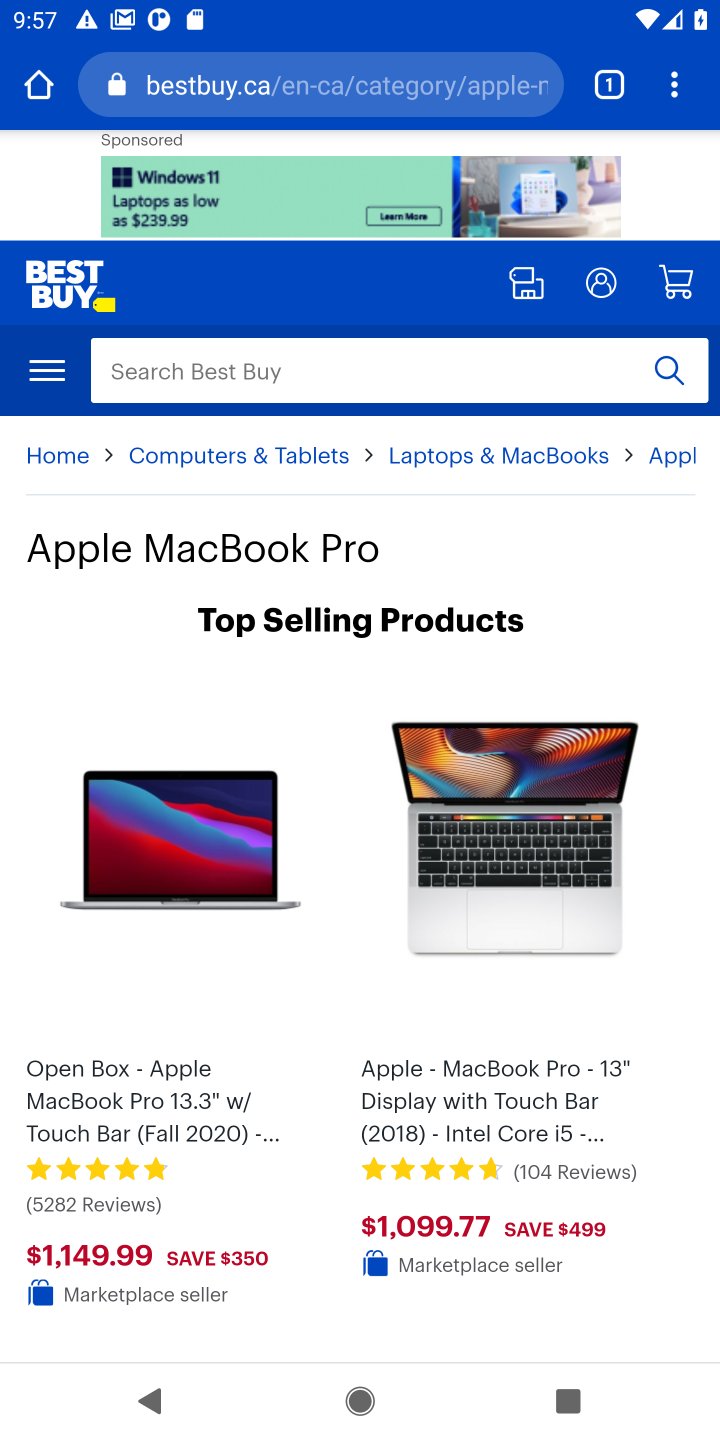
Step 29: drag from (116, 1201) to (151, 713)
Your task to perform on an android device: Search for macbook pro 13 inch on bestbuy.com, select the first entry, add it to the cart, then select checkout. Image 30: 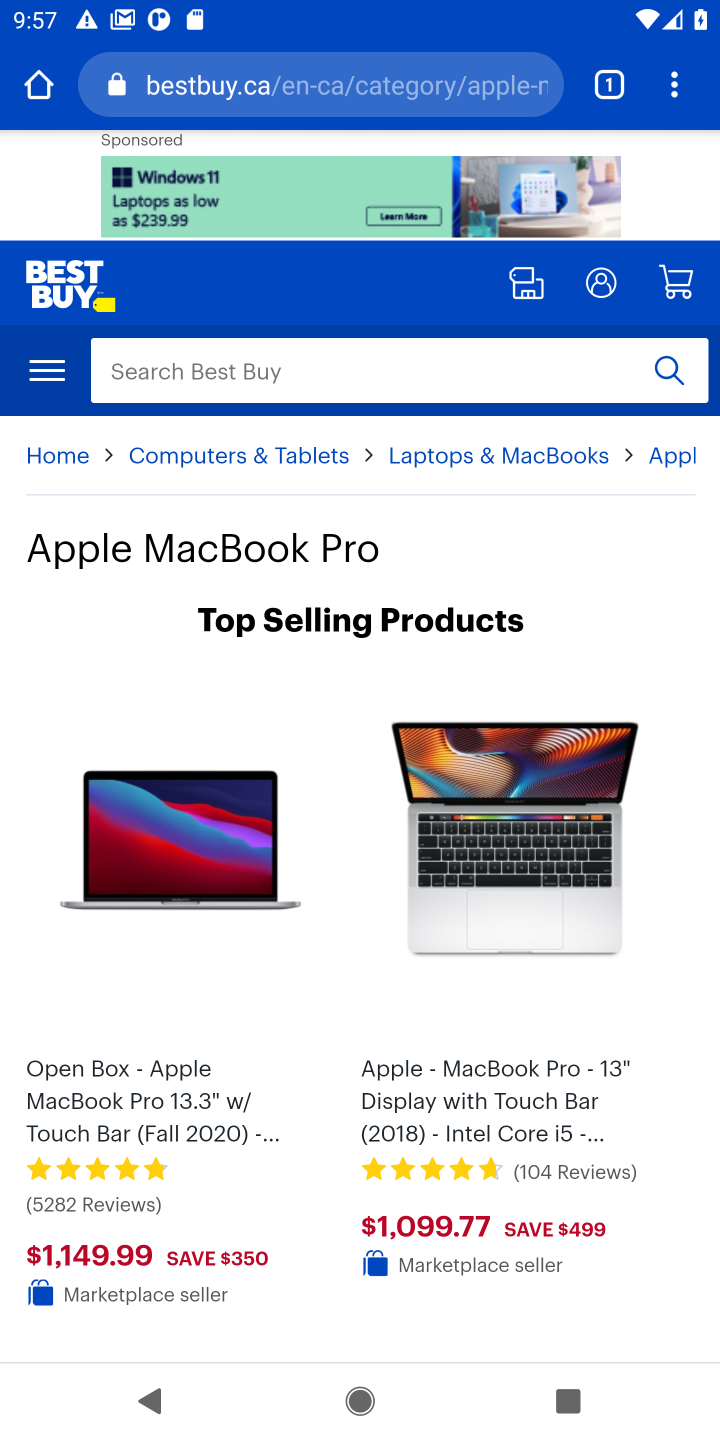
Step 30: drag from (159, 1111) to (289, 514)
Your task to perform on an android device: Search for macbook pro 13 inch on bestbuy.com, select the first entry, add it to the cart, then select checkout. Image 31: 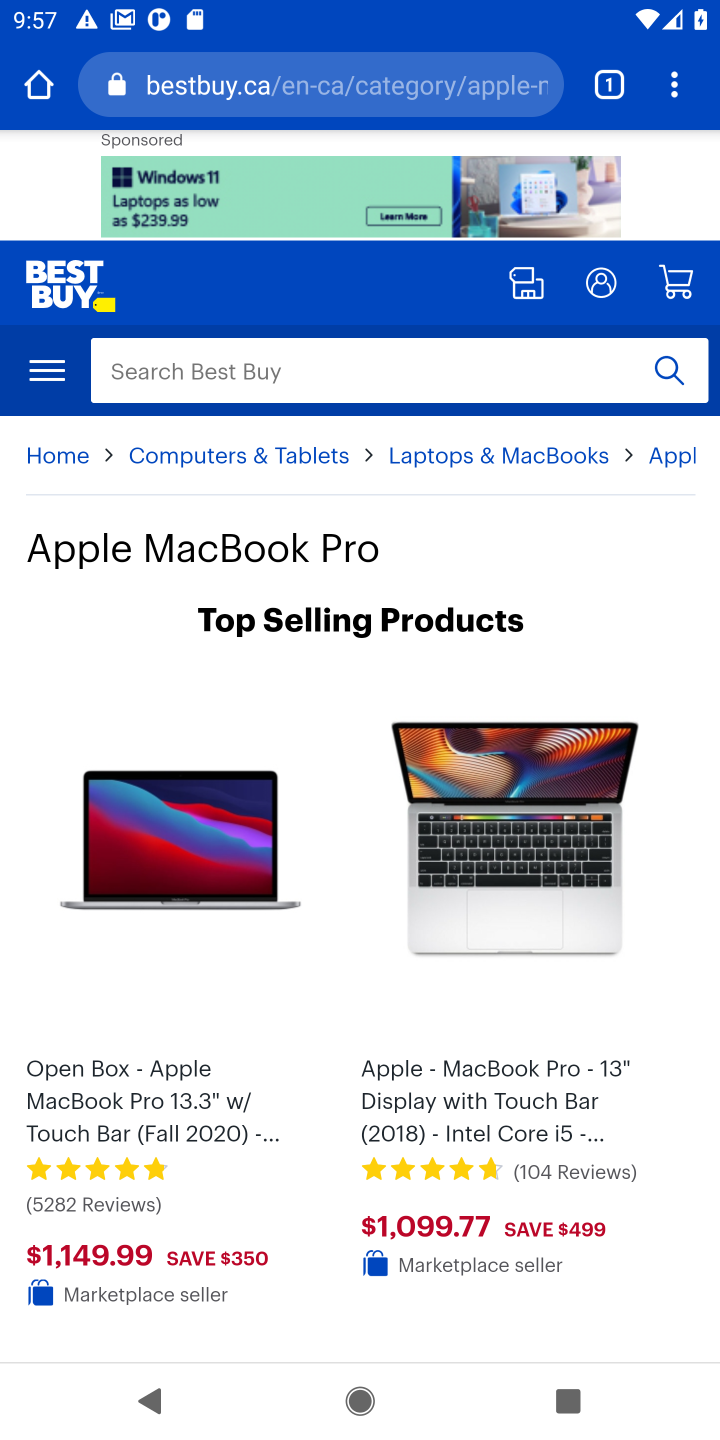
Step 31: click (131, 1085)
Your task to perform on an android device: Search for macbook pro 13 inch on bestbuy.com, select the first entry, add it to the cart, then select checkout. Image 32: 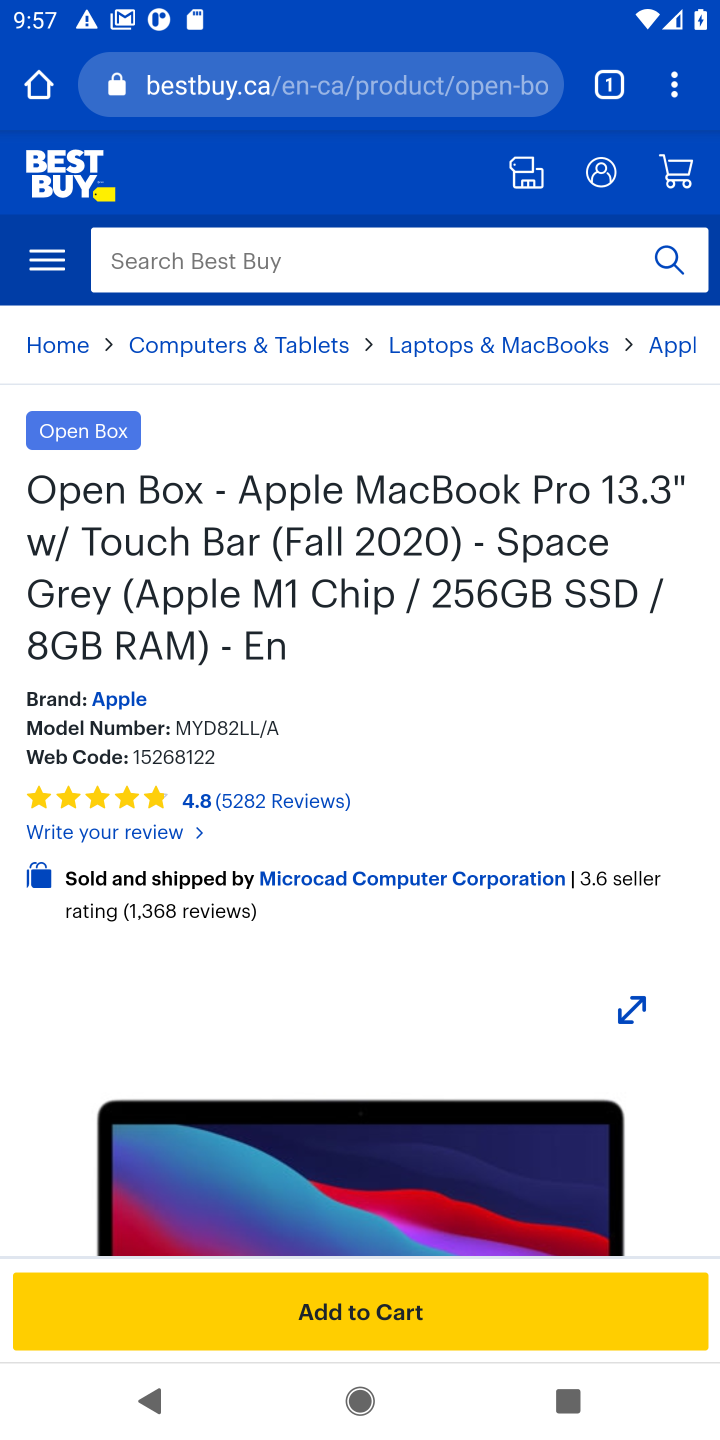
Step 32: click (296, 1321)
Your task to perform on an android device: Search for macbook pro 13 inch on bestbuy.com, select the first entry, add it to the cart, then select checkout. Image 33: 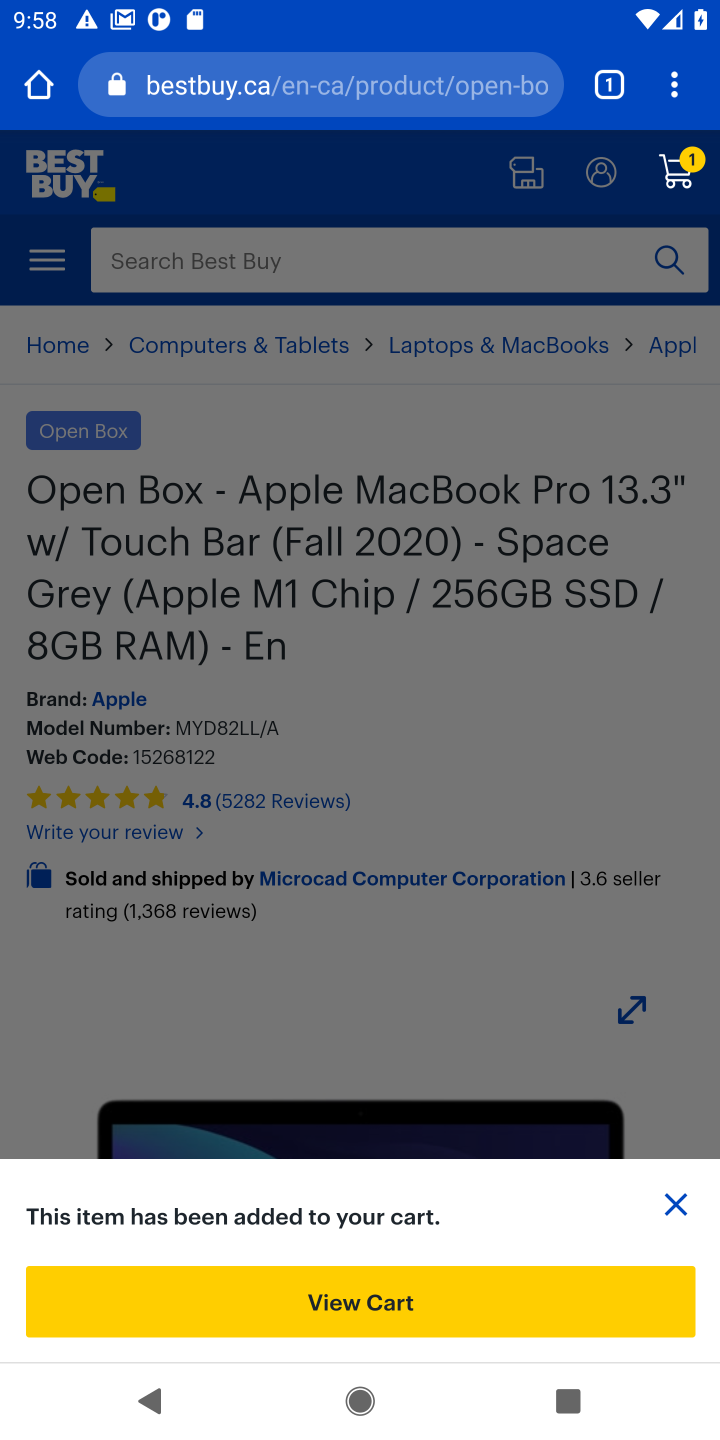
Step 33: click (373, 1300)
Your task to perform on an android device: Search for macbook pro 13 inch on bestbuy.com, select the first entry, add it to the cart, then select checkout. Image 34: 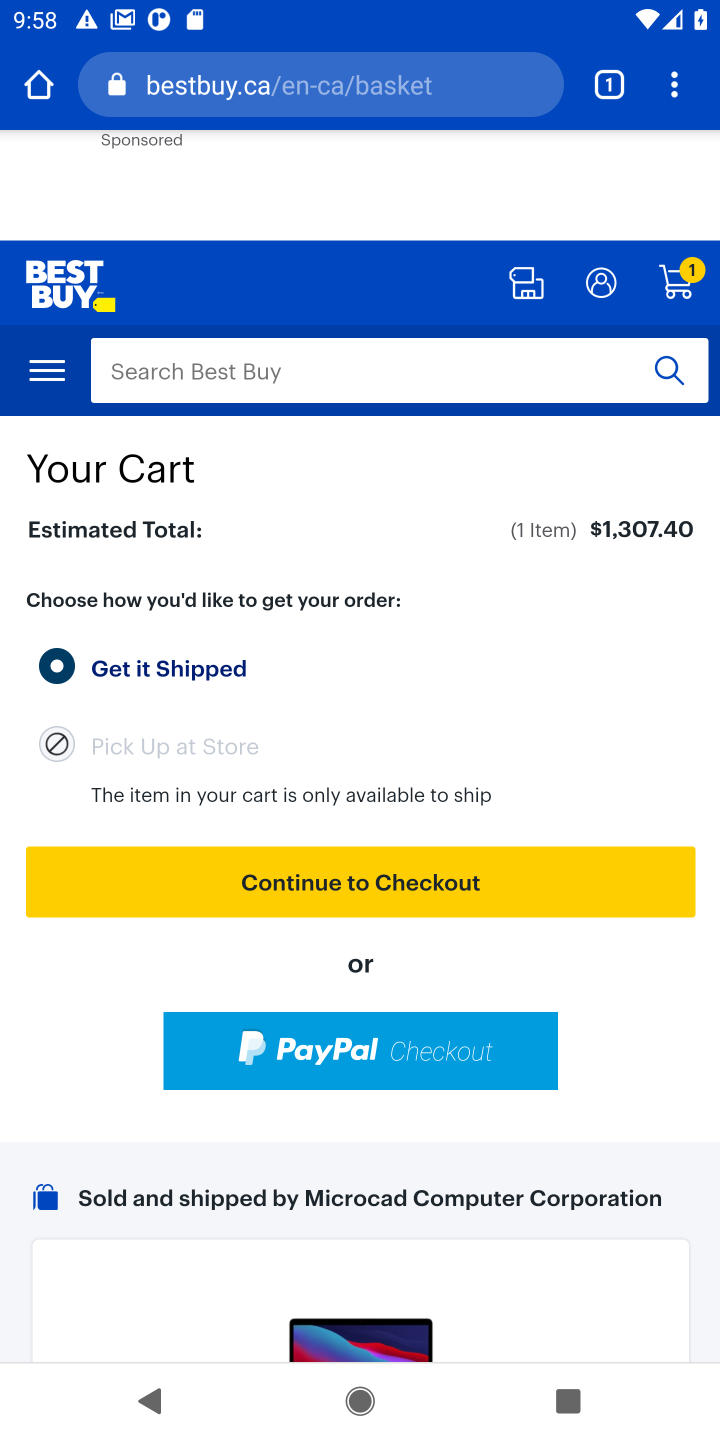
Step 34: task complete